Your task to perform on an android device: Empty the shopping cart on newegg.com. Search for "jbl flip 4" on newegg.com, select the first entry, add it to the cart, then select checkout. Image 0: 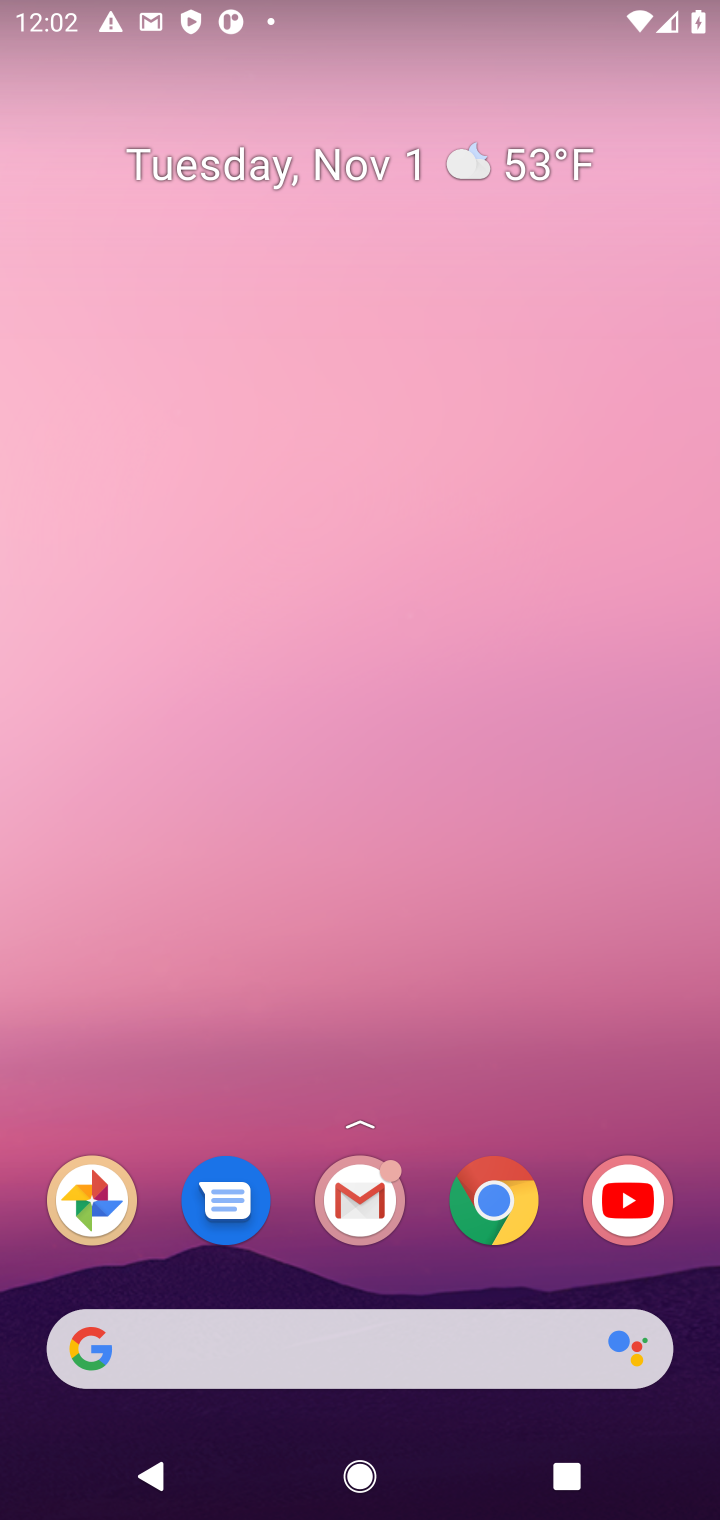
Step 0: click (494, 1203)
Your task to perform on an android device: Empty the shopping cart on newegg.com. Search for "jbl flip 4" on newegg.com, select the first entry, add it to the cart, then select checkout. Image 1: 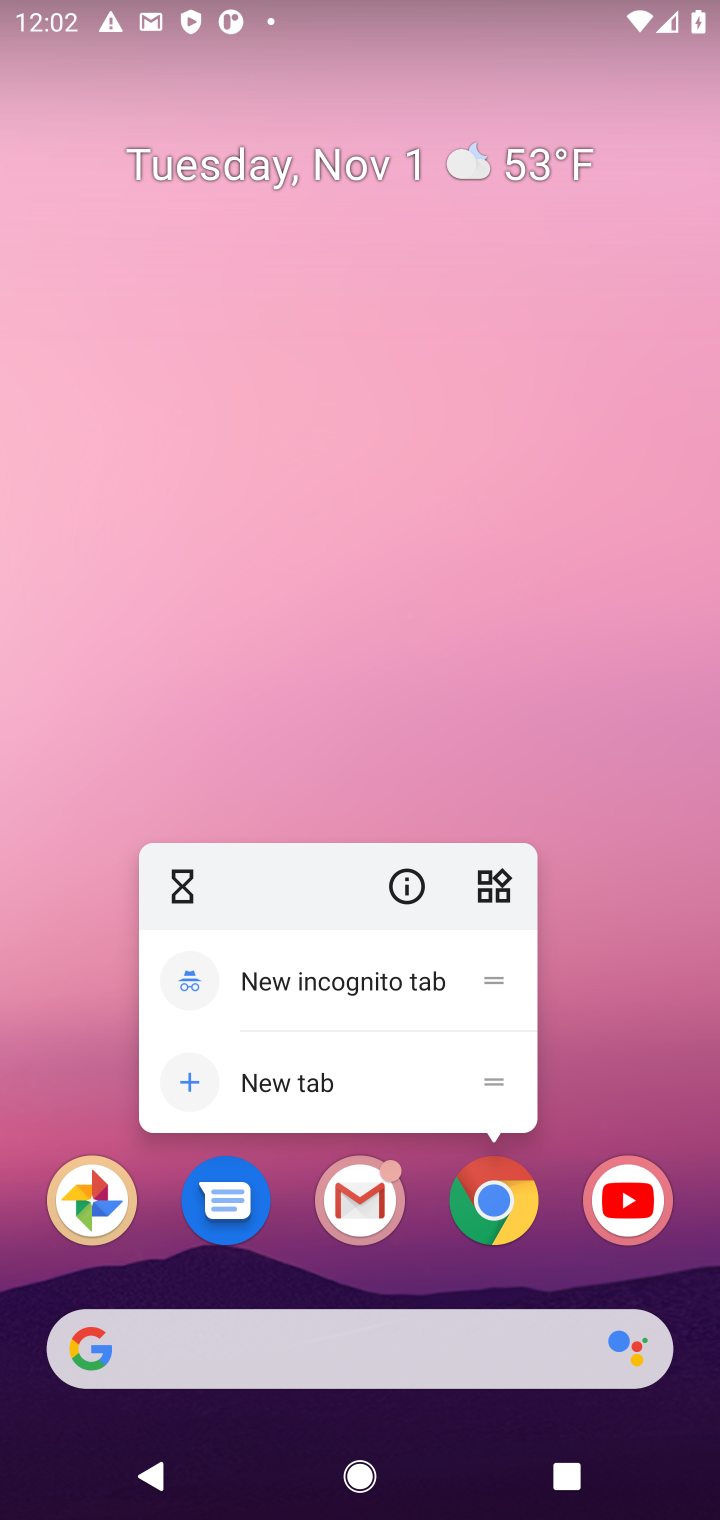
Step 1: click (501, 1238)
Your task to perform on an android device: Empty the shopping cart on newegg.com. Search for "jbl flip 4" on newegg.com, select the first entry, add it to the cart, then select checkout. Image 2: 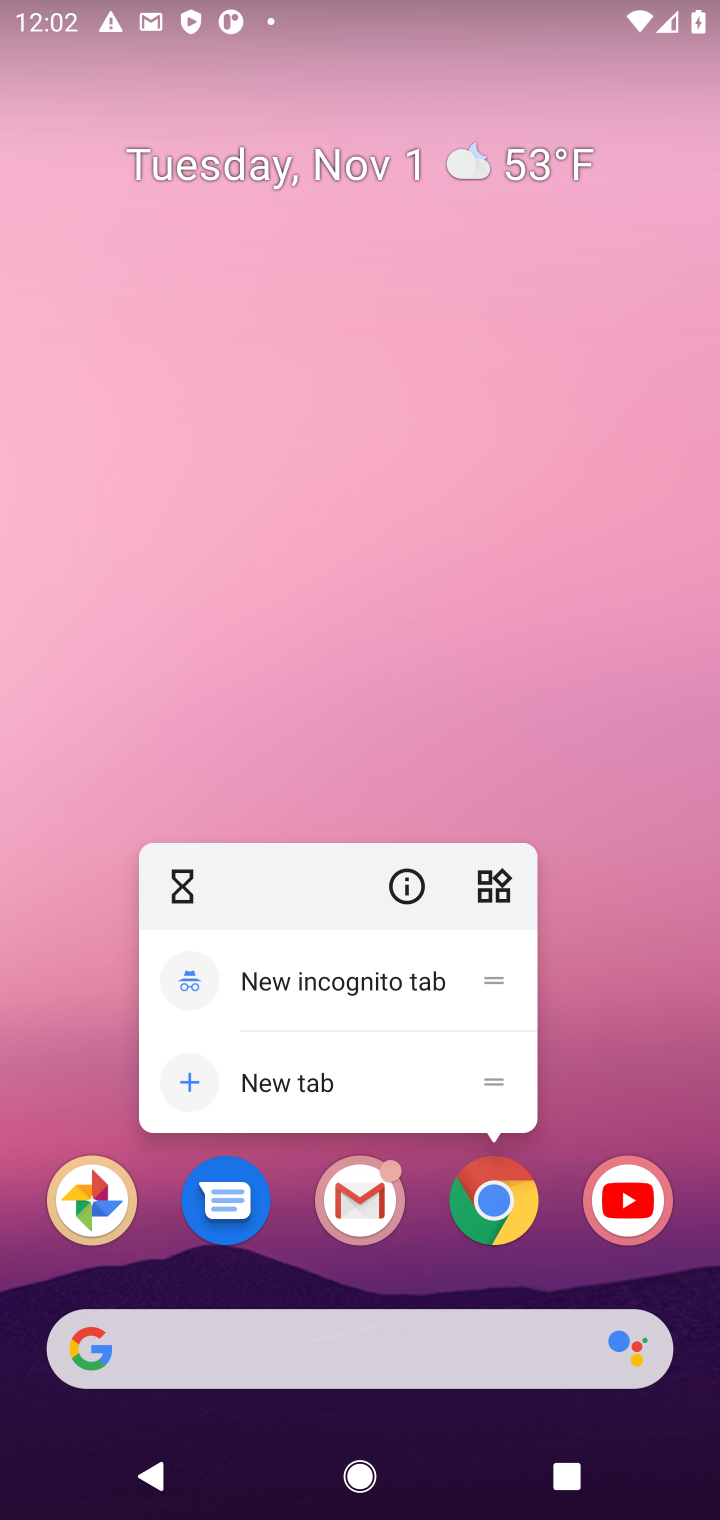
Step 2: click (499, 1221)
Your task to perform on an android device: Empty the shopping cart on newegg.com. Search for "jbl flip 4" on newegg.com, select the first entry, add it to the cart, then select checkout. Image 3: 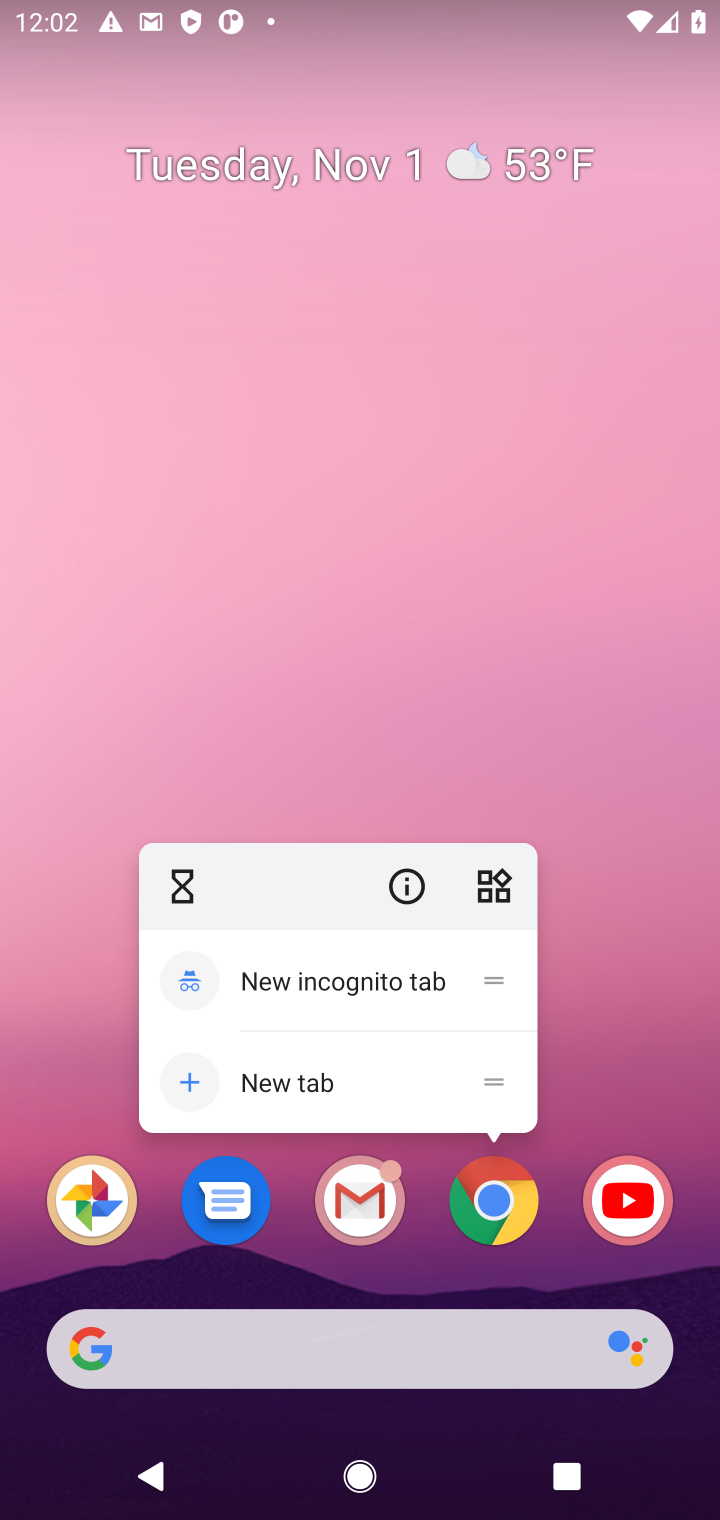
Step 3: click (483, 1195)
Your task to perform on an android device: Empty the shopping cart on newegg.com. Search for "jbl flip 4" on newegg.com, select the first entry, add it to the cart, then select checkout. Image 4: 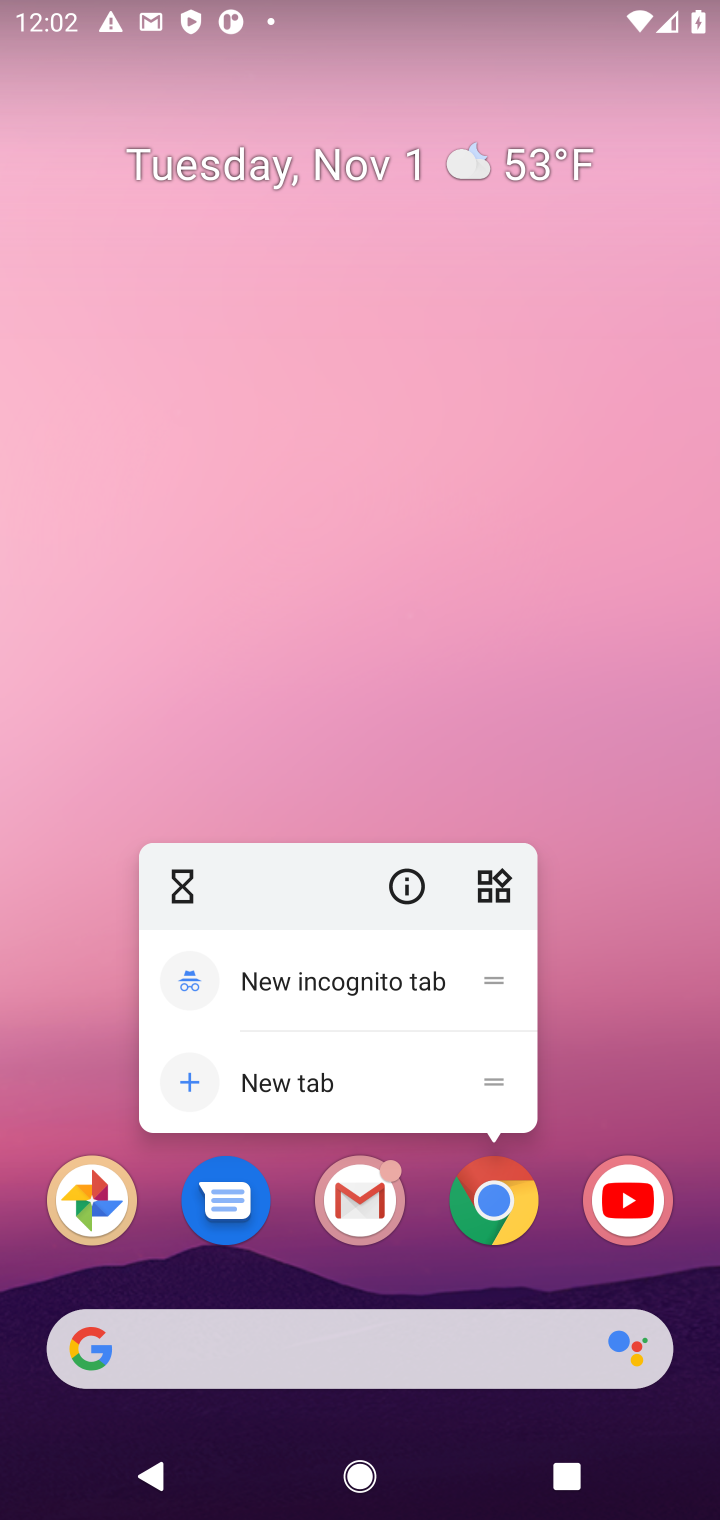
Step 4: click (501, 1216)
Your task to perform on an android device: Empty the shopping cart on newegg.com. Search for "jbl flip 4" on newegg.com, select the first entry, add it to the cart, then select checkout. Image 5: 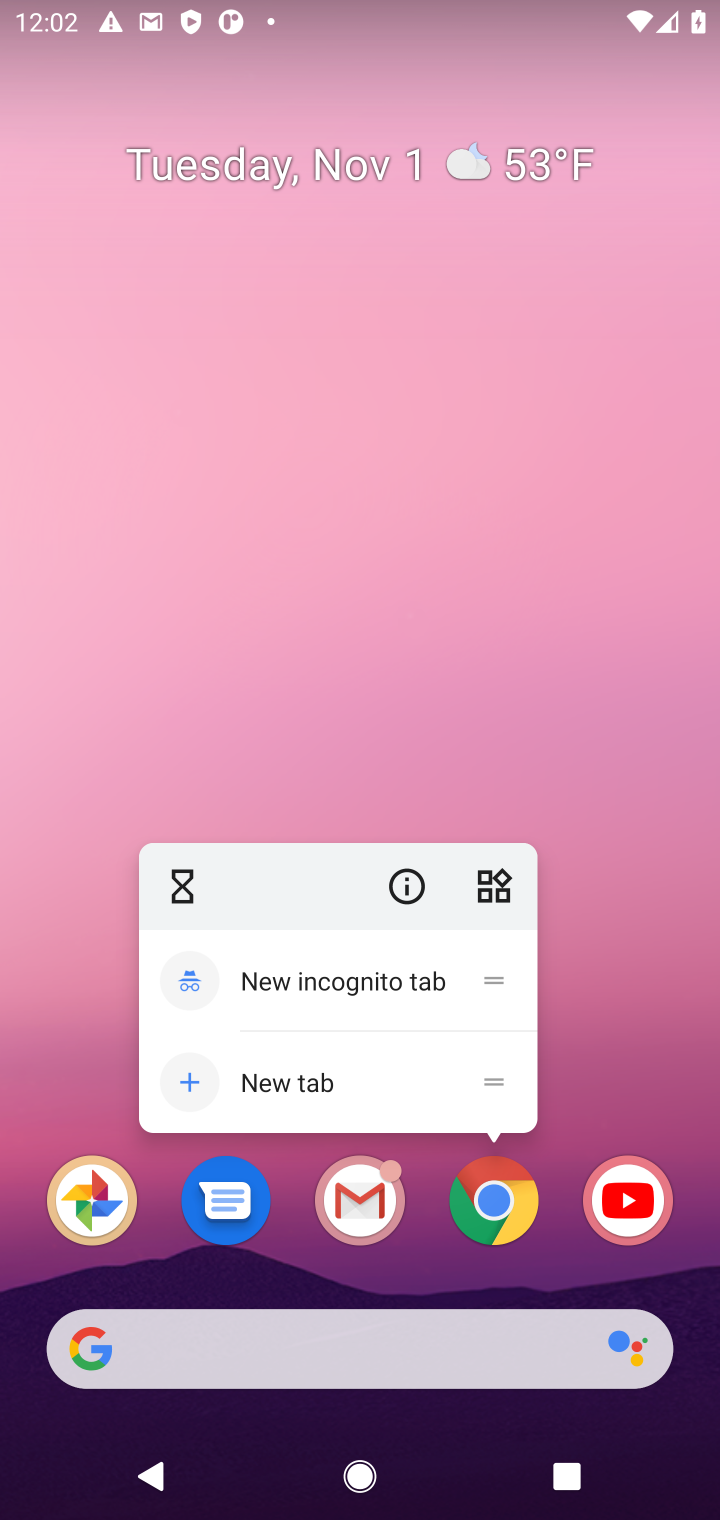
Step 5: click (493, 1230)
Your task to perform on an android device: Empty the shopping cart on newegg.com. Search for "jbl flip 4" on newegg.com, select the first entry, add it to the cart, then select checkout. Image 6: 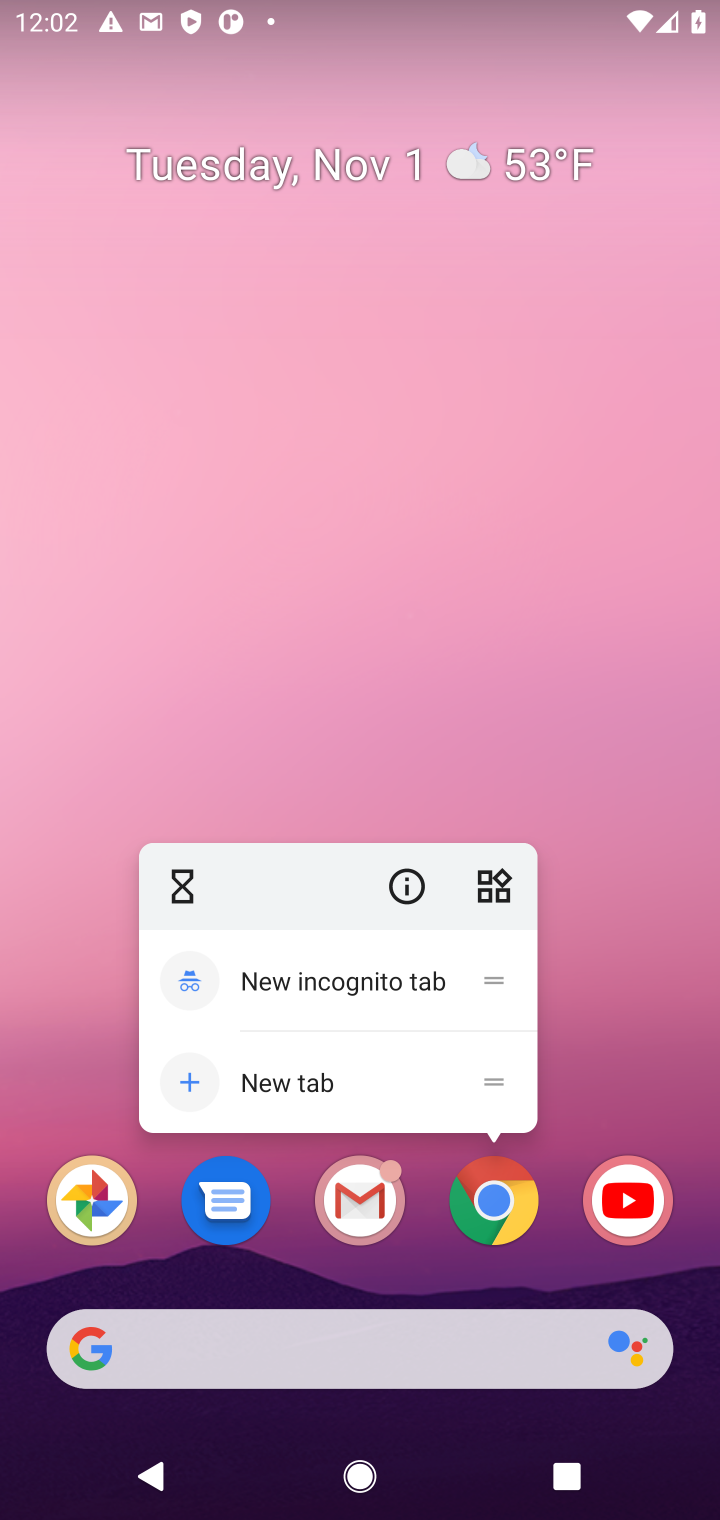
Step 6: click (497, 1206)
Your task to perform on an android device: Empty the shopping cart on newegg.com. Search for "jbl flip 4" on newegg.com, select the first entry, add it to the cart, then select checkout. Image 7: 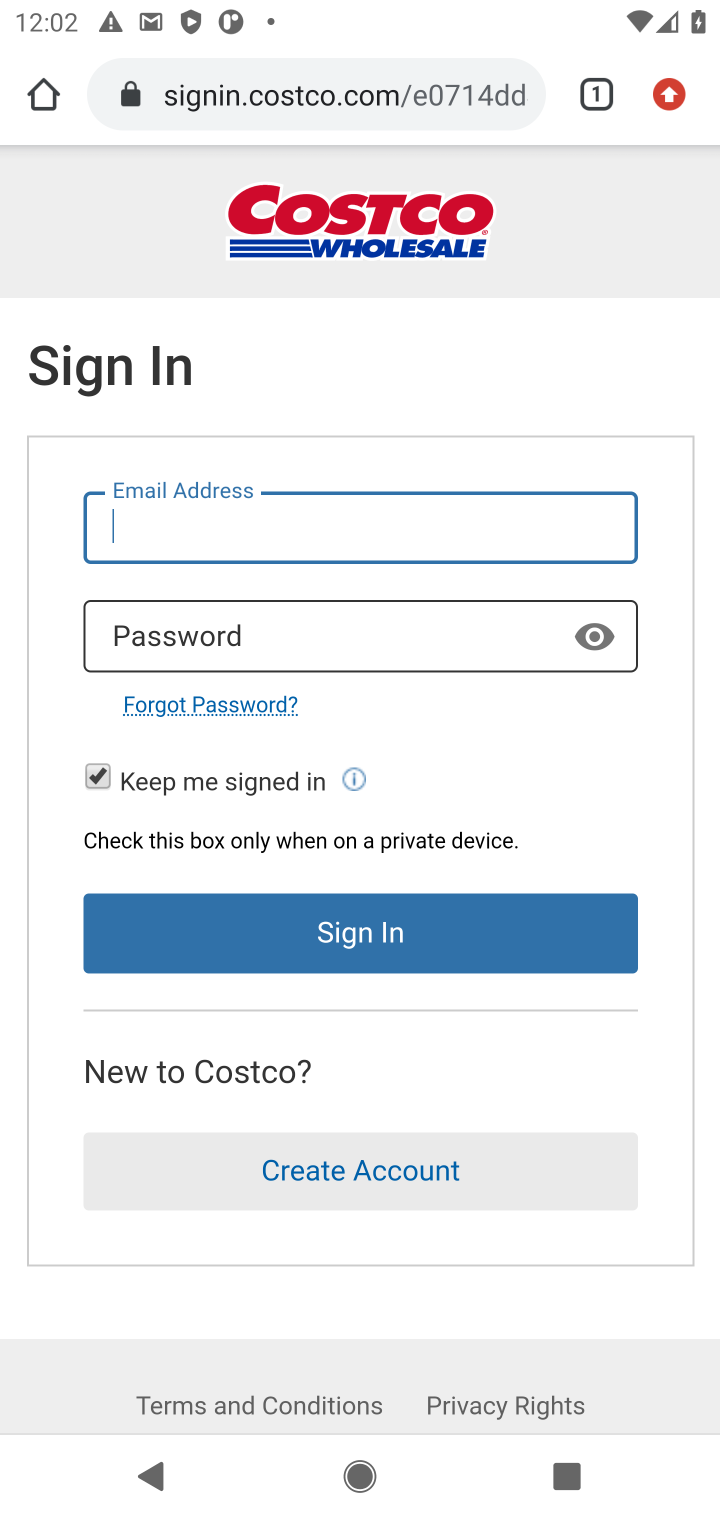
Step 7: click (443, 72)
Your task to perform on an android device: Empty the shopping cart on newegg.com. Search for "jbl flip 4" on newegg.com, select the first entry, add it to the cart, then select checkout. Image 8: 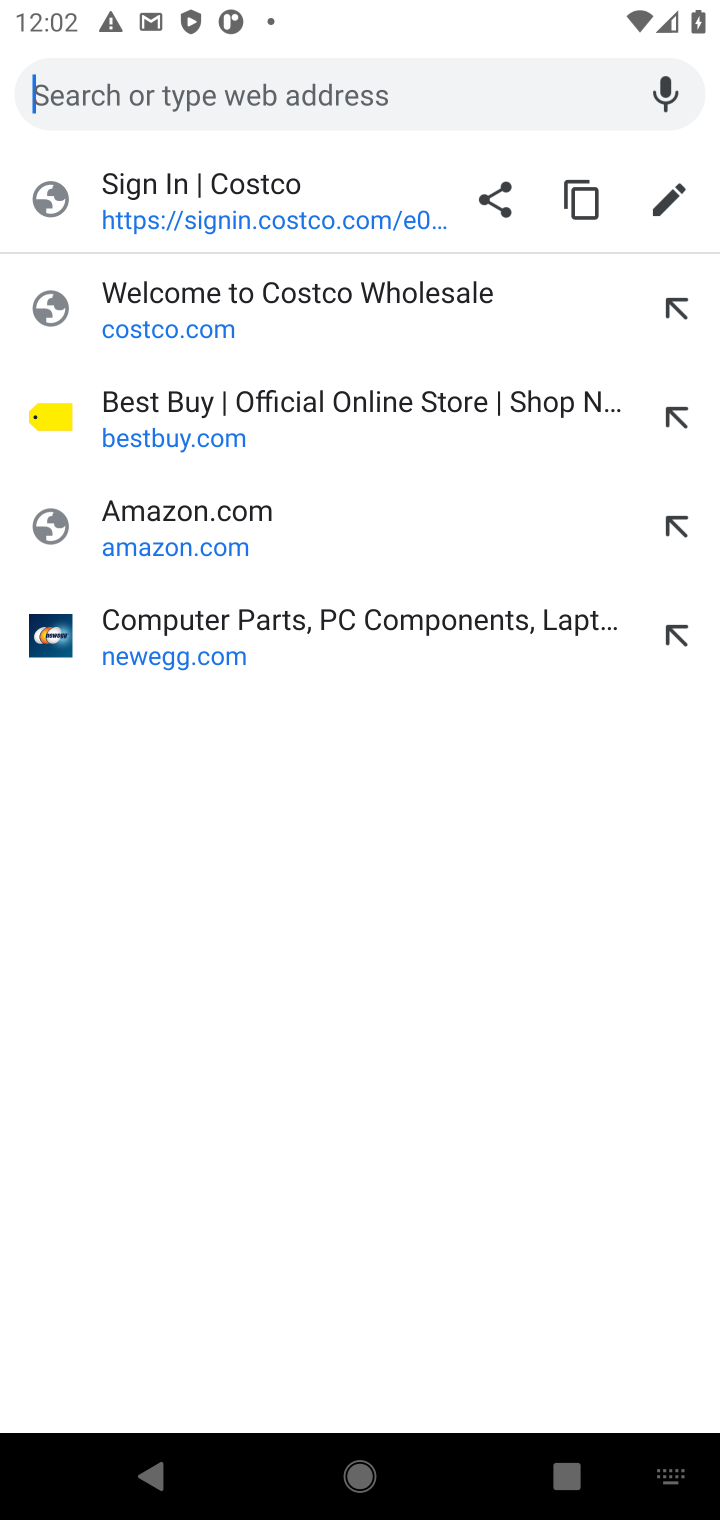
Step 8: click (280, 106)
Your task to perform on an android device: Empty the shopping cart on newegg.com. Search for "jbl flip 4" on newegg.com, select the first entry, add it to the cart, then select checkout. Image 9: 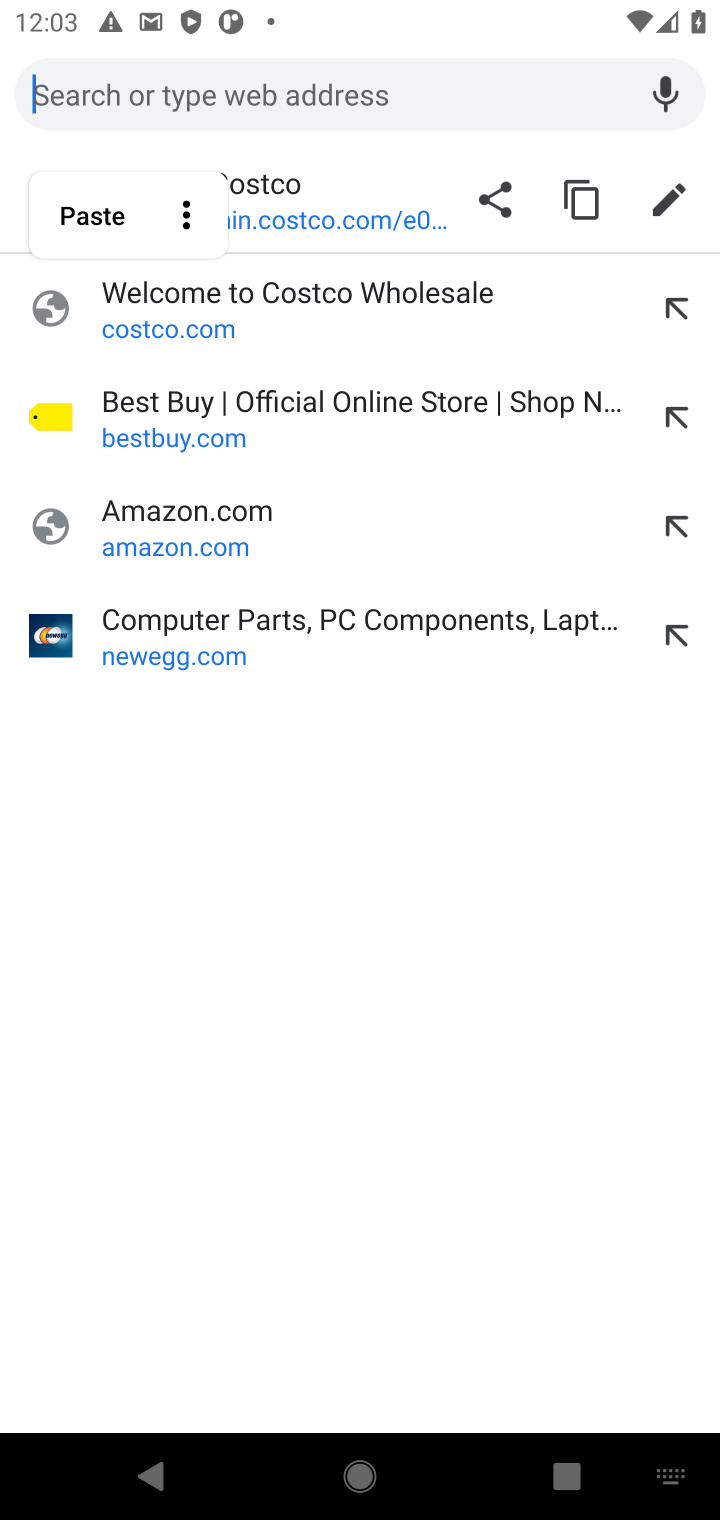
Step 9: type "jbl flip 4"
Your task to perform on an android device: Empty the shopping cart on newegg.com. Search for "jbl flip 4" on newegg.com, select the first entry, add it to the cart, then select checkout. Image 10: 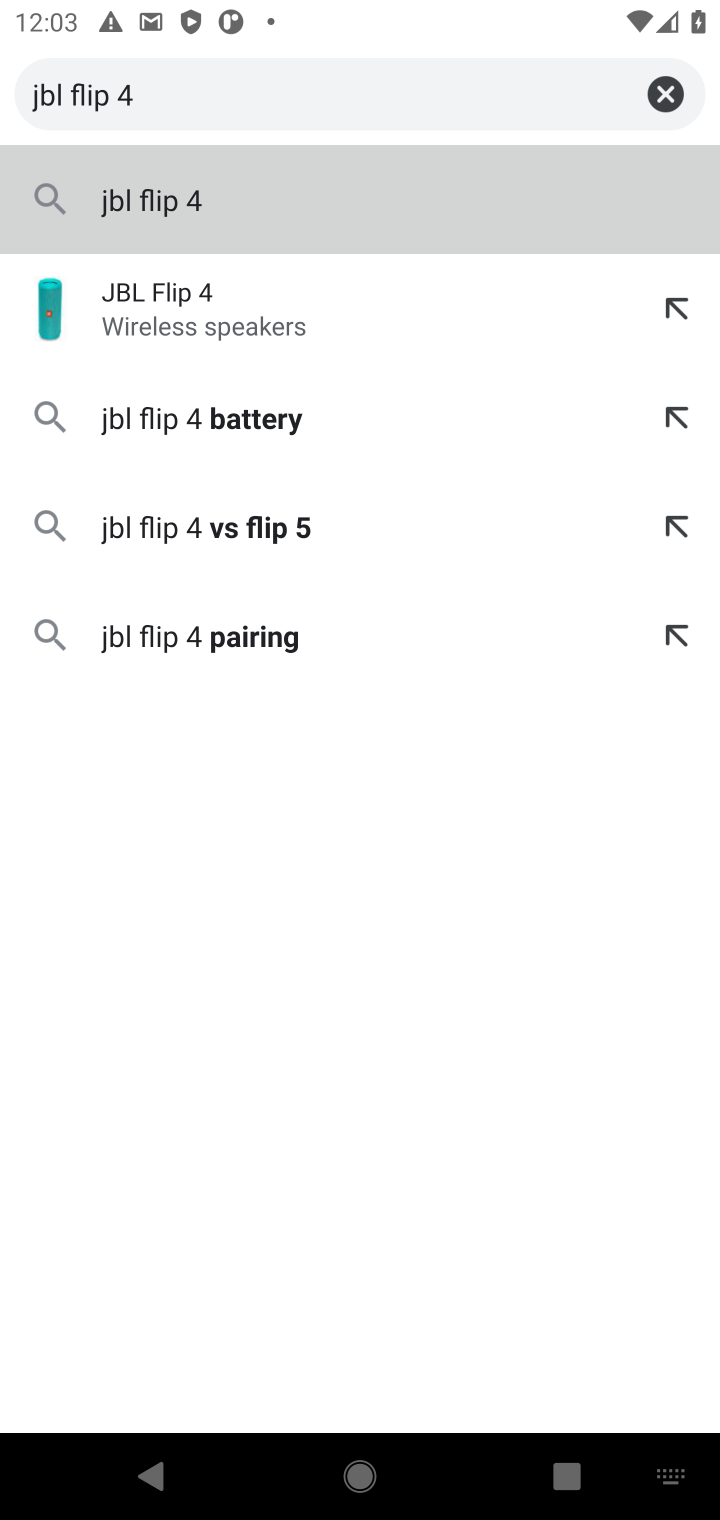
Step 10: press back button
Your task to perform on an android device: Empty the shopping cart on newegg.com. Search for "jbl flip 4" on newegg.com, select the first entry, add it to the cart, then select checkout. Image 11: 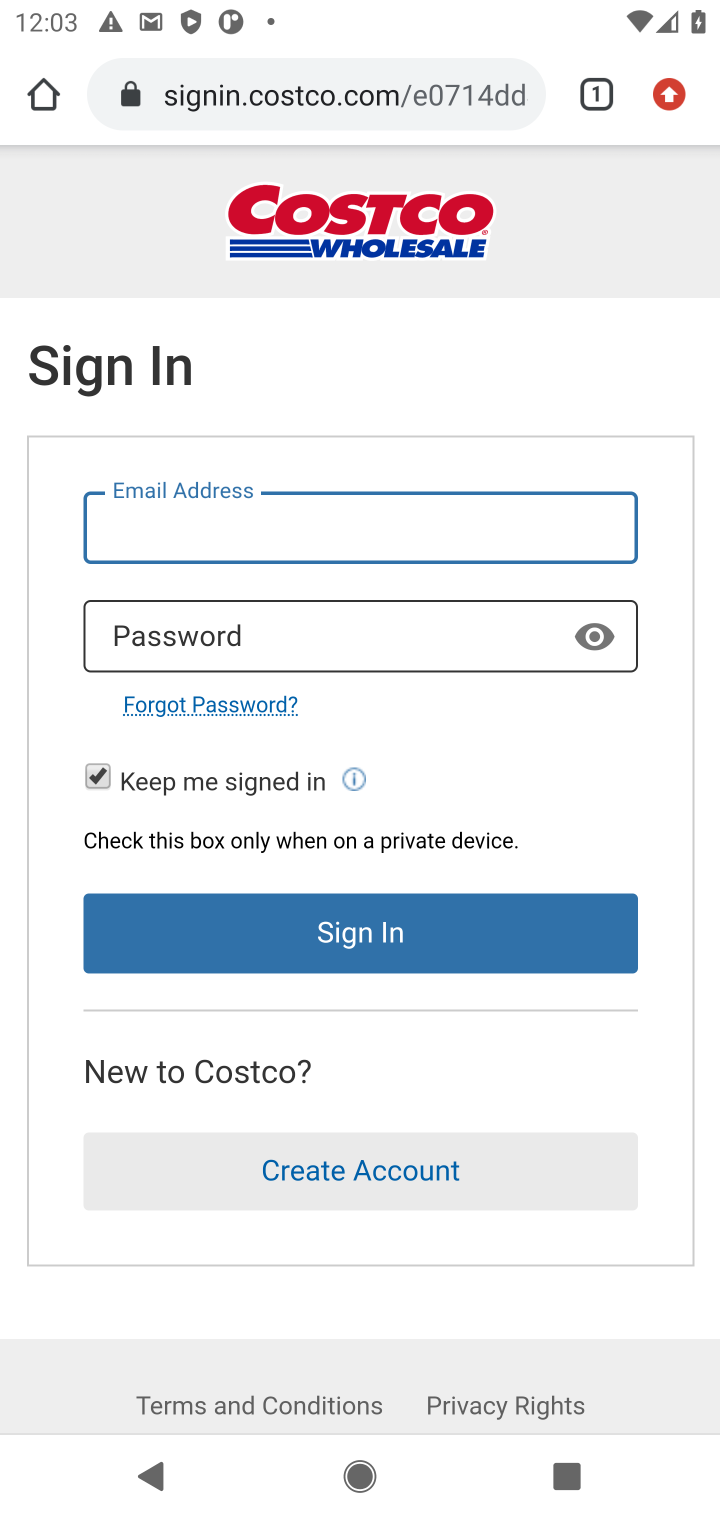
Step 11: click (268, 105)
Your task to perform on an android device: Empty the shopping cart on newegg.com. Search for "jbl flip 4" on newegg.com, select the first entry, add it to the cart, then select checkout. Image 12: 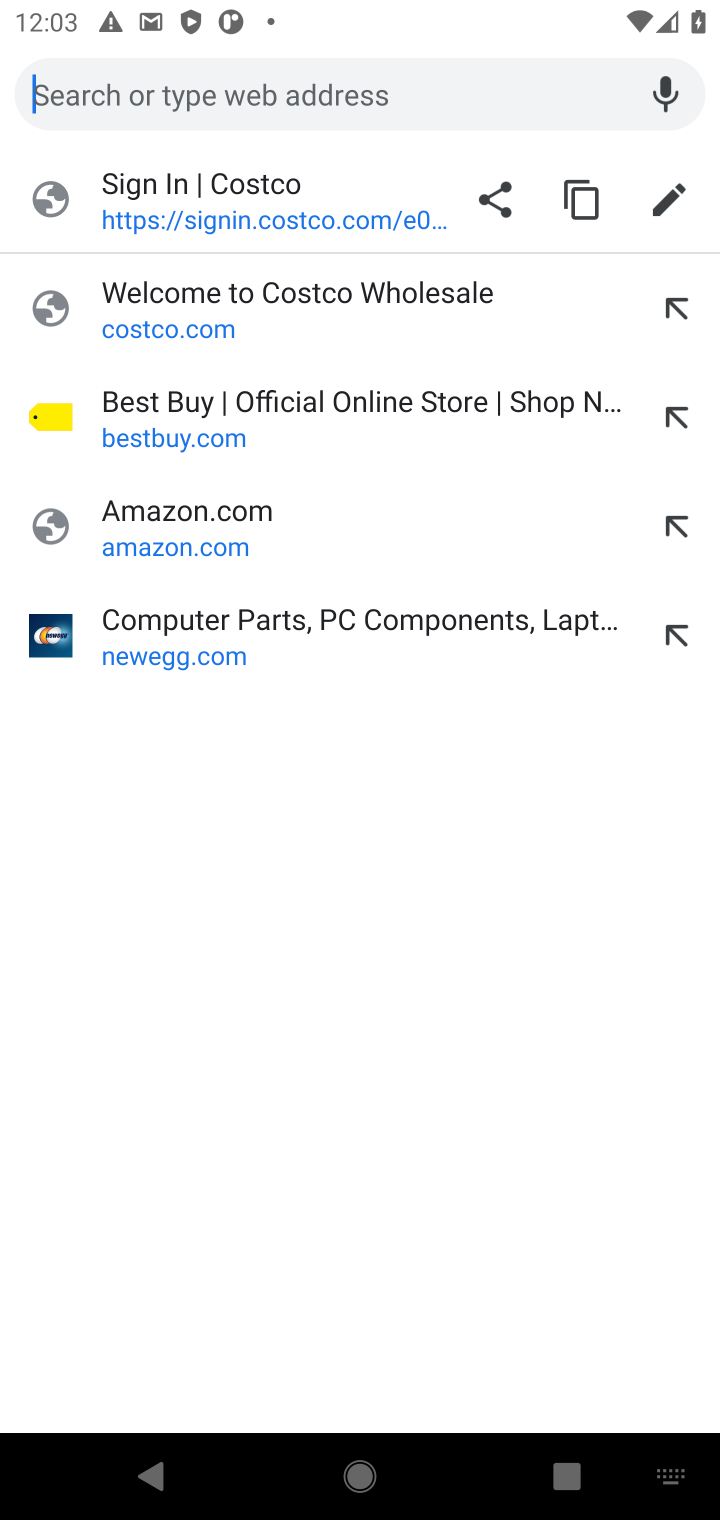
Step 12: type "newegg.com"
Your task to perform on an android device: Empty the shopping cart on newegg.com. Search for "jbl flip 4" on newegg.com, select the first entry, add it to the cart, then select checkout. Image 13: 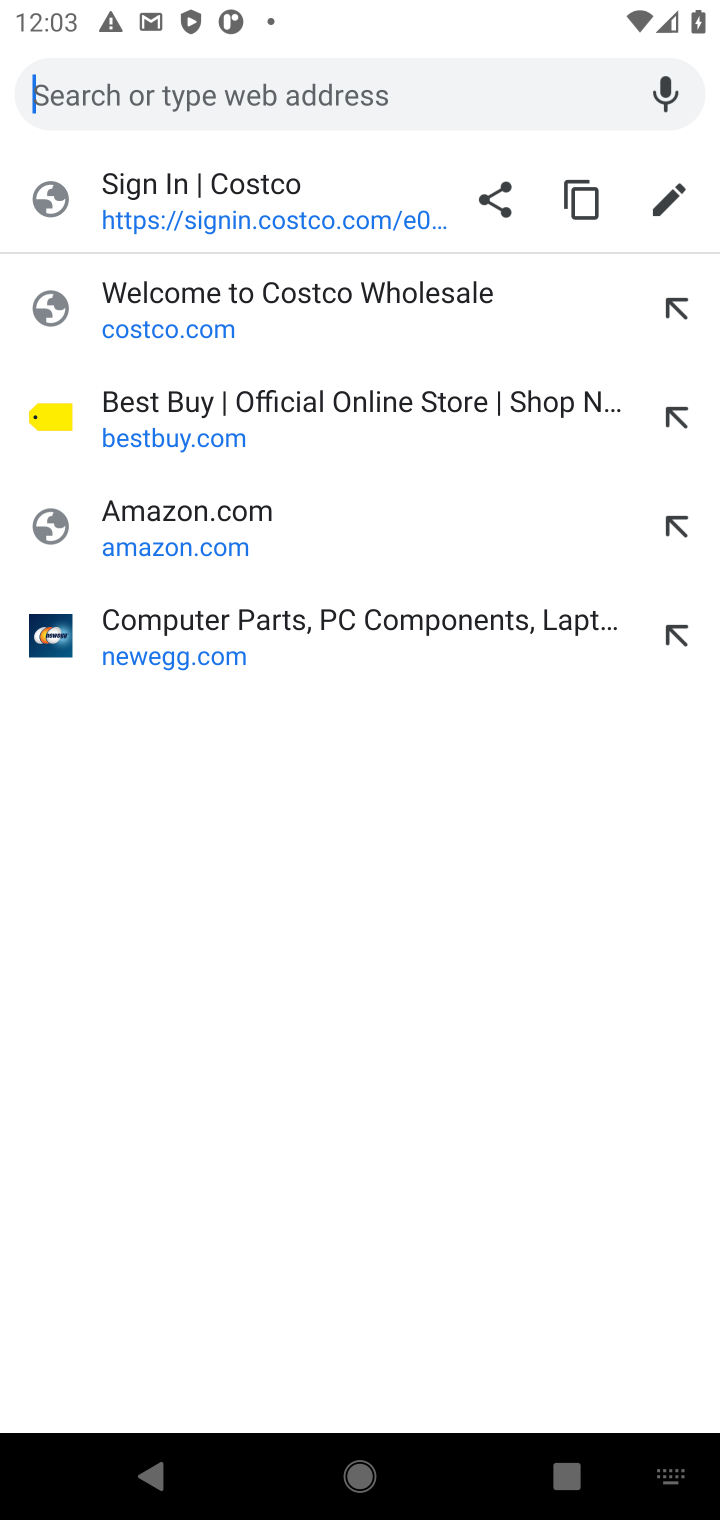
Step 13: click (353, 654)
Your task to perform on an android device: Empty the shopping cart on newegg.com. Search for "jbl flip 4" on newegg.com, select the first entry, add it to the cart, then select checkout. Image 14: 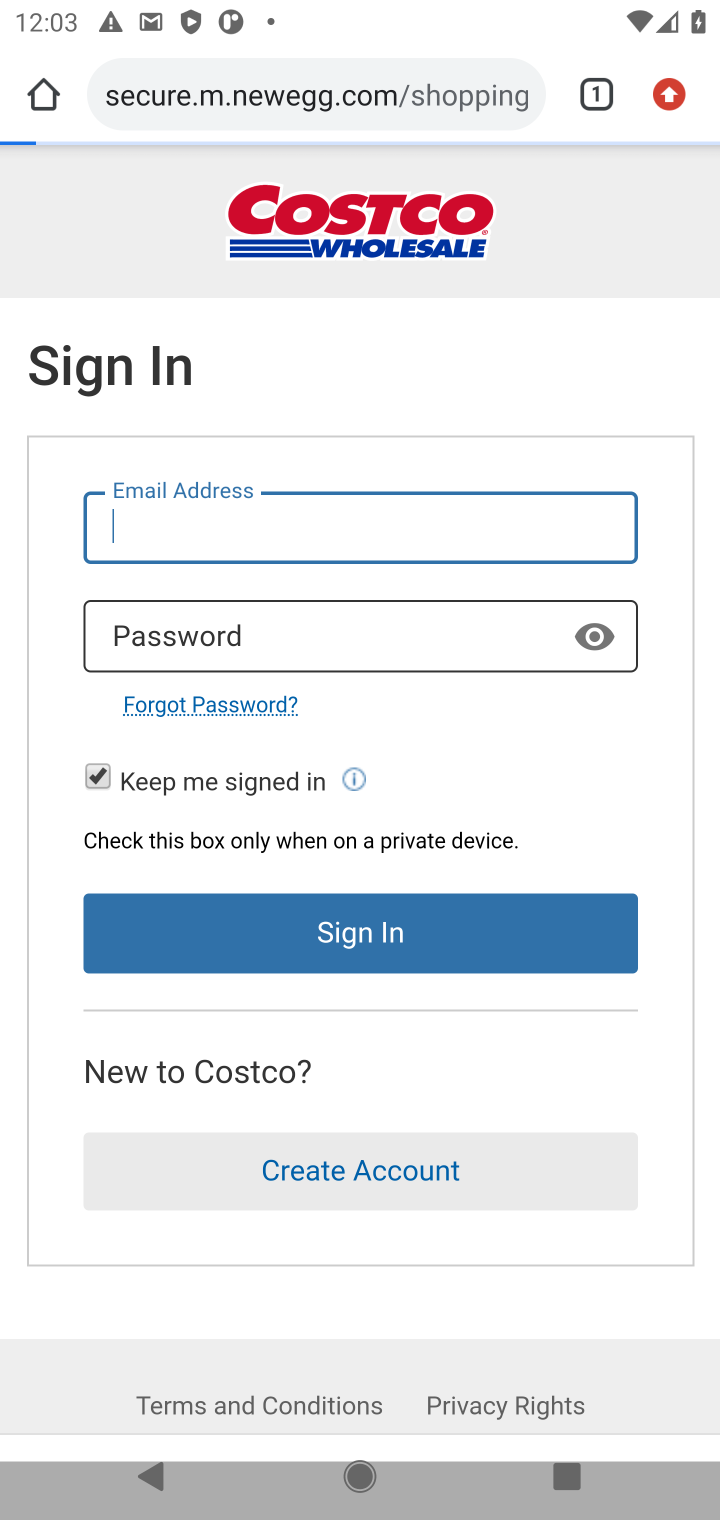
Step 14: click (304, 609)
Your task to perform on an android device: Empty the shopping cart on newegg.com. Search for "jbl flip 4" on newegg.com, select the first entry, add it to the cart, then select checkout. Image 15: 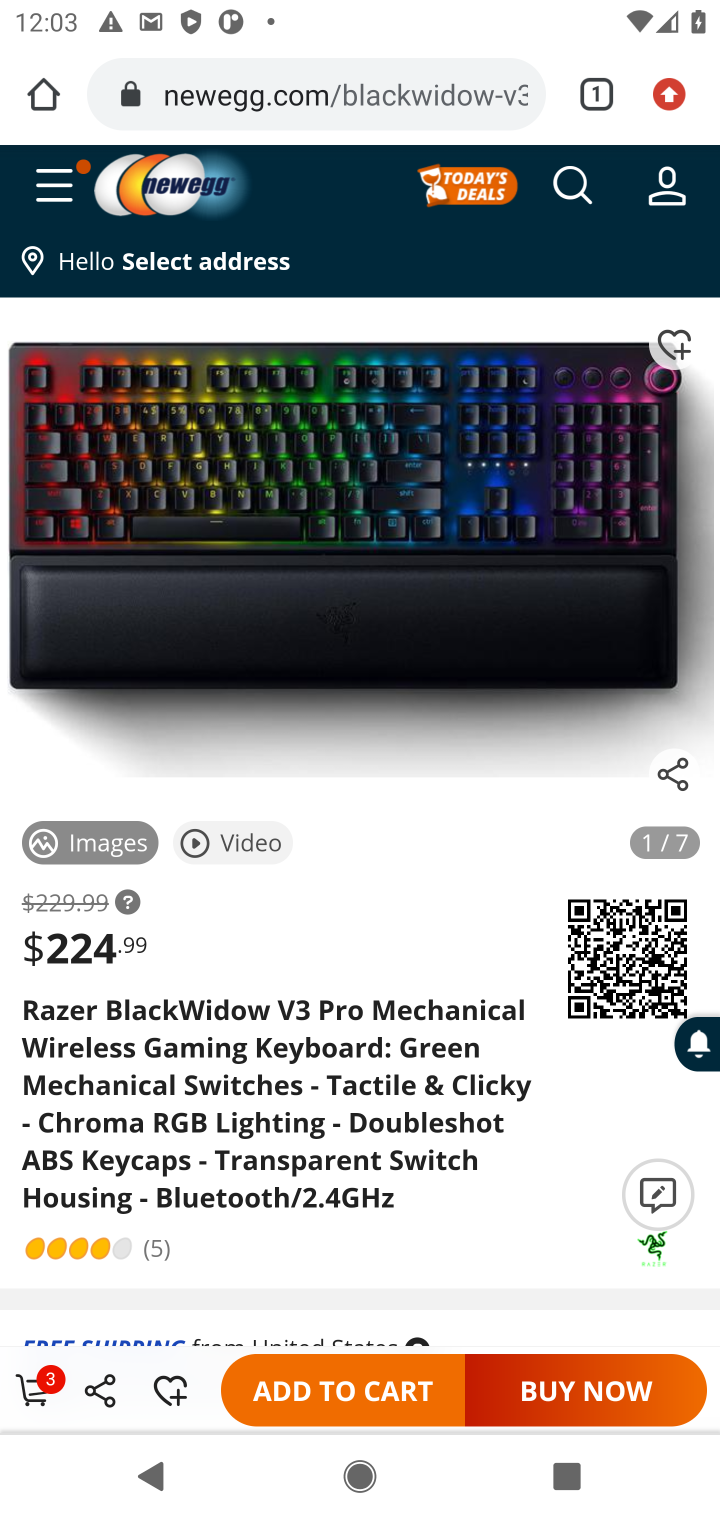
Step 15: click (581, 182)
Your task to perform on an android device: Empty the shopping cart on newegg.com. Search for "jbl flip 4" on newegg.com, select the first entry, add it to the cart, then select checkout. Image 16: 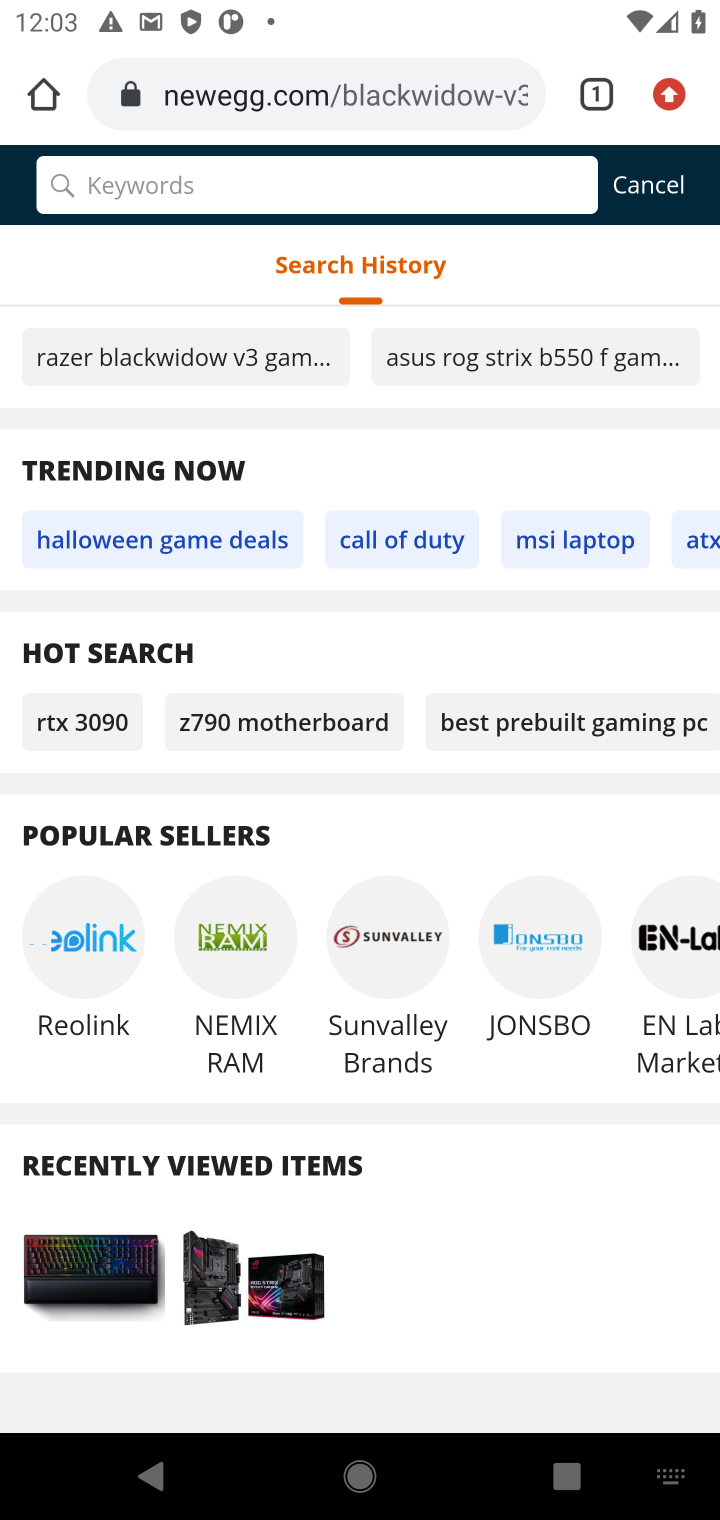
Step 16: type "jbl flip 4"
Your task to perform on an android device: Empty the shopping cart on newegg.com. Search for "jbl flip 4" on newegg.com, select the first entry, add it to the cart, then select checkout. Image 17: 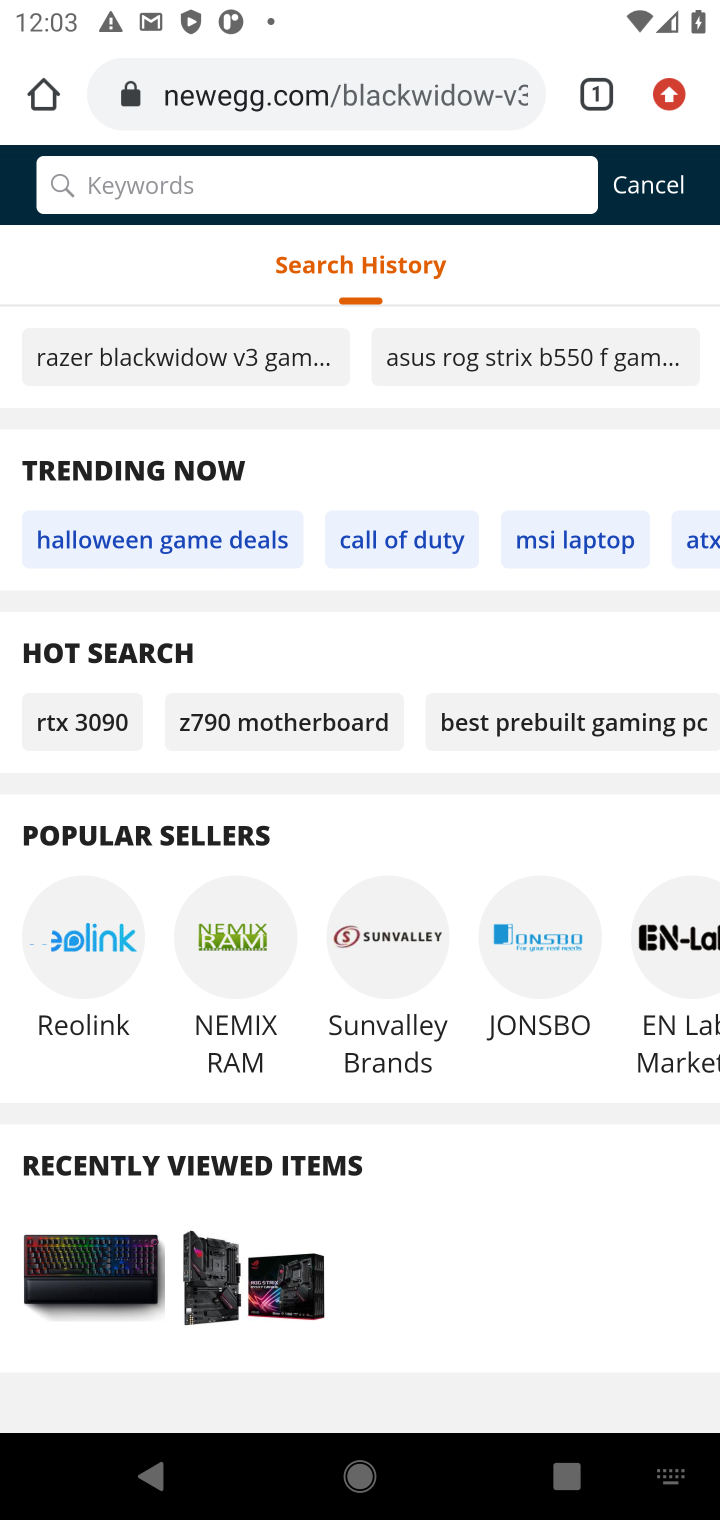
Step 17: type ""
Your task to perform on an android device: Empty the shopping cart on newegg.com. Search for "jbl flip 4" on newegg.com, select the first entry, add it to the cart, then select checkout. Image 18: 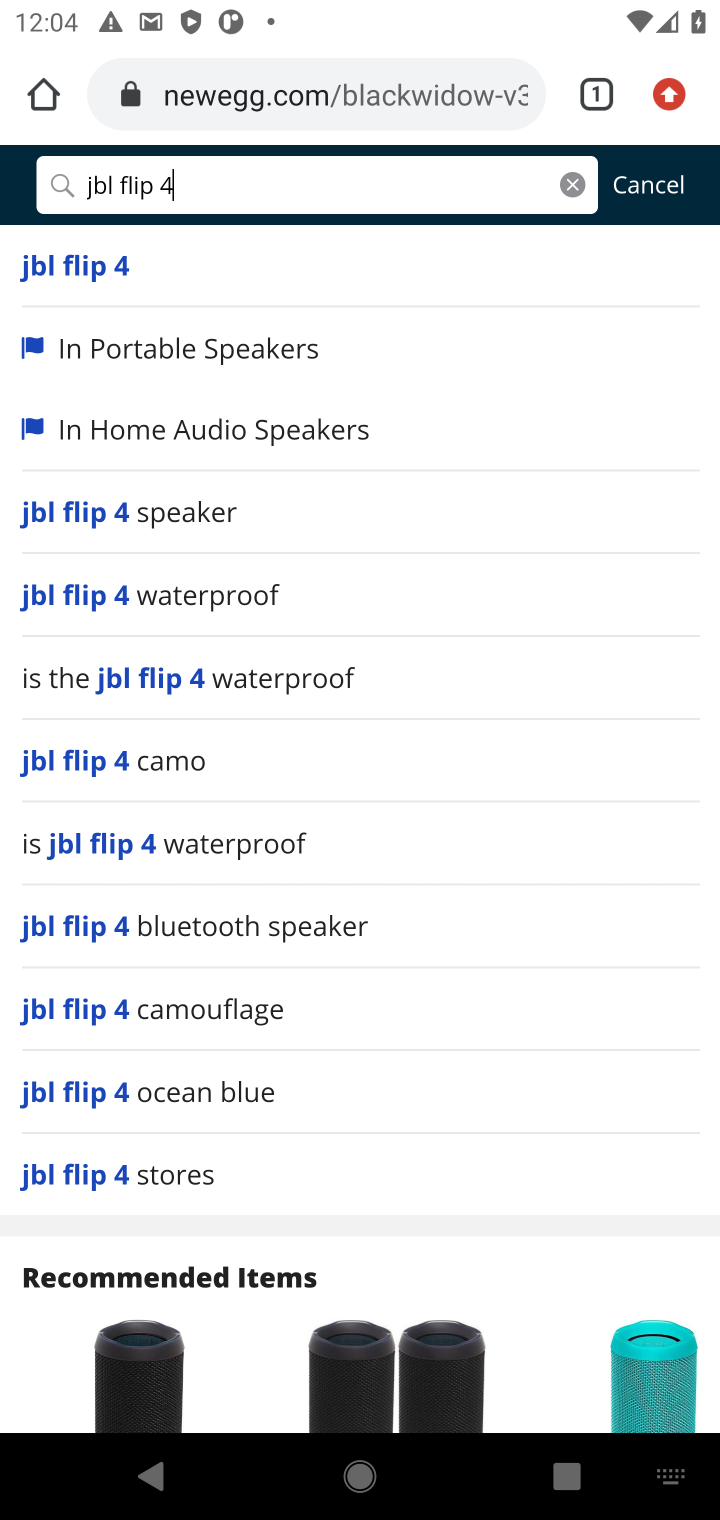
Step 18: click (136, 509)
Your task to perform on an android device: Empty the shopping cart on newegg.com. Search for "jbl flip 4" on newegg.com, select the first entry, add it to the cart, then select checkout. Image 19: 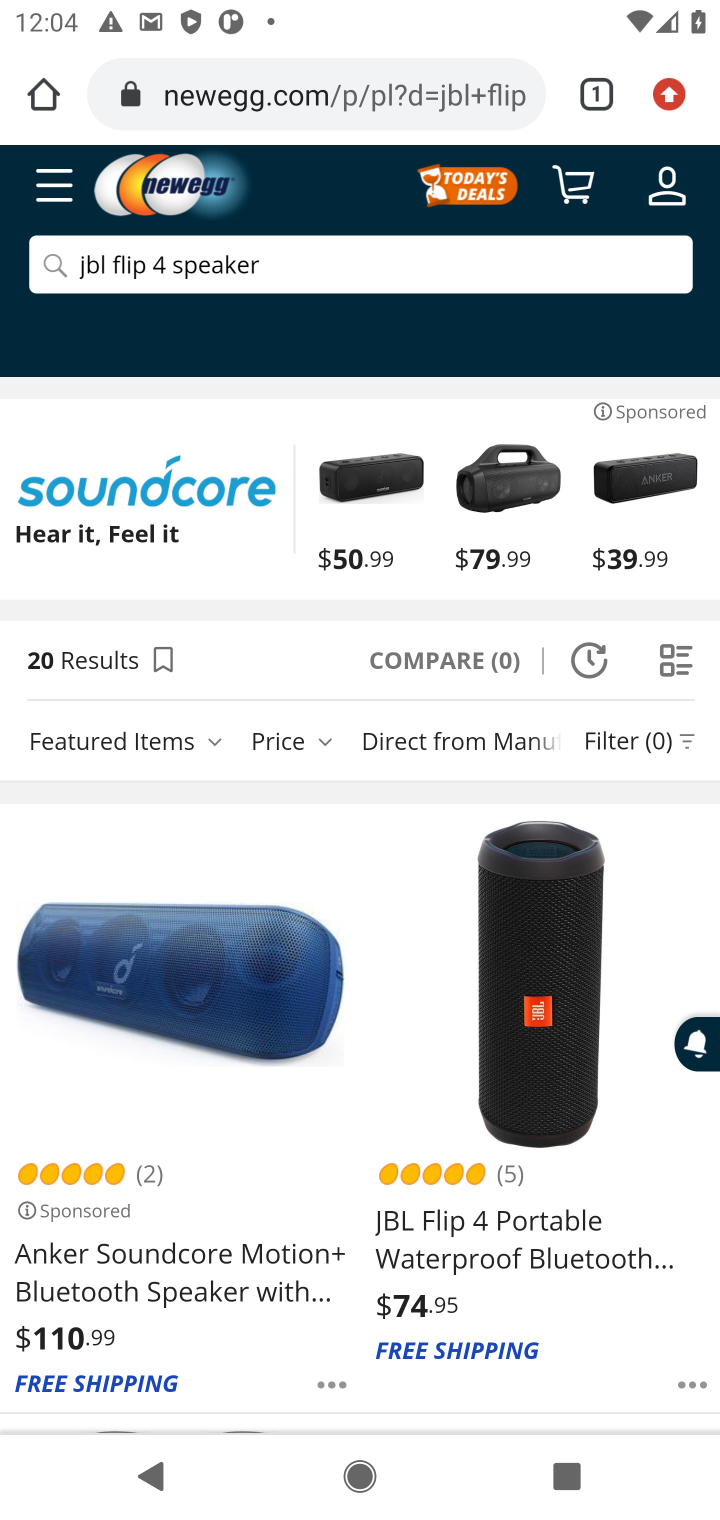
Step 19: click (500, 1243)
Your task to perform on an android device: Empty the shopping cart on newegg.com. Search for "jbl flip 4" on newegg.com, select the first entry, add it to the cart, then select checkout. Image 20: 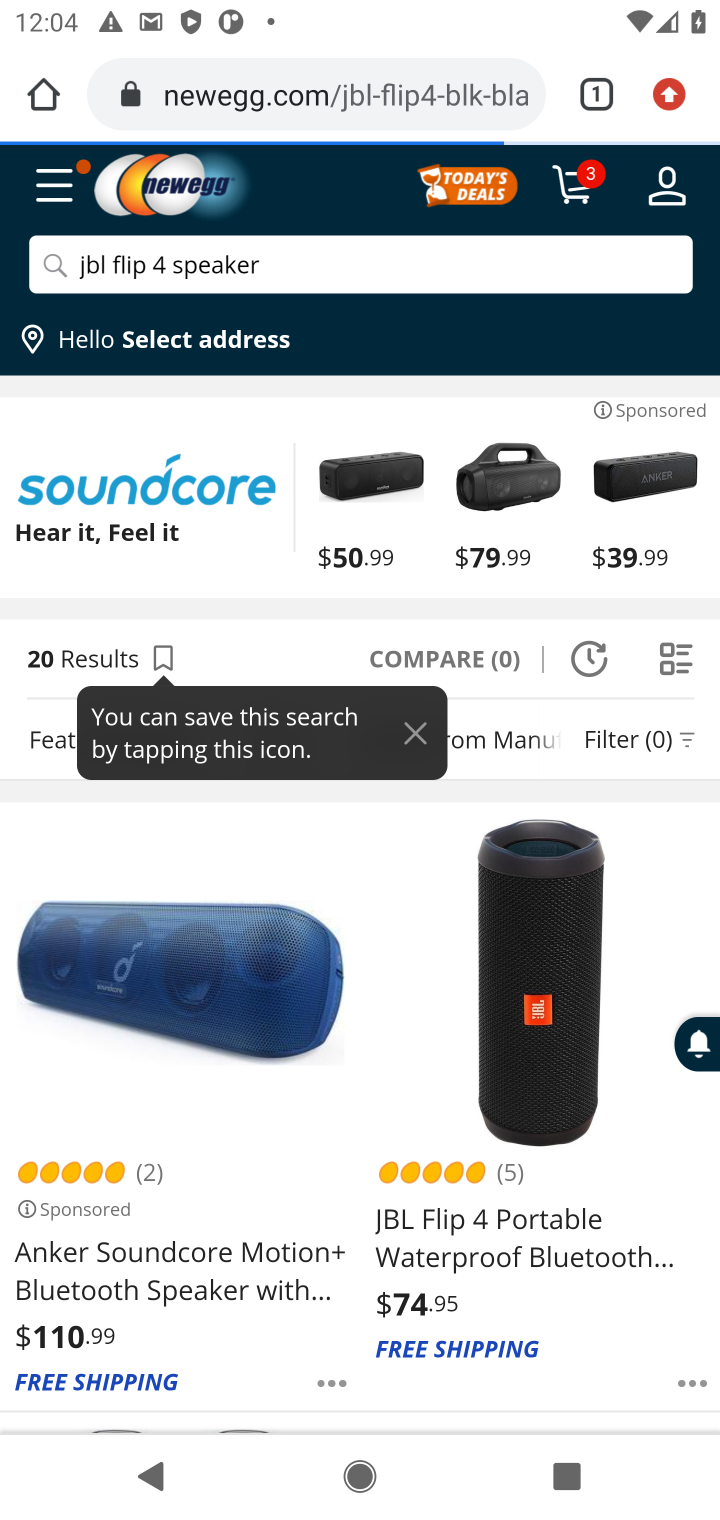
Step 20: click (469, 1002)
Your task to perform on an android device: Empty the shopping cart on newegg.com. Search for "jbl flip 4" on newegg.com, select the first entry, add it to the cart, then select checkout. Image 21: 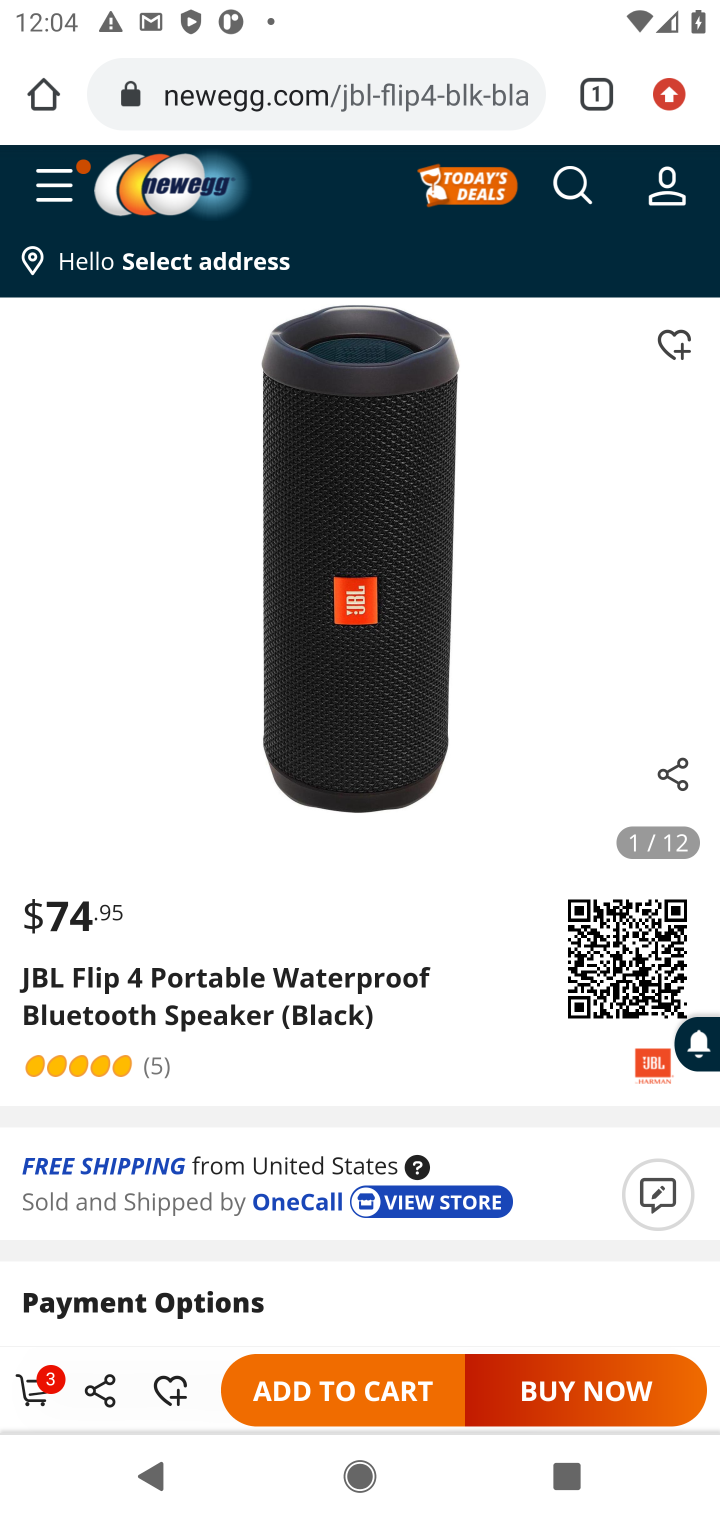
Step 21: click (340, 1373)
Your task to perform on an android device: Empty the shopping cart on newegg.com. Search for "jbl flip 4" on newegg.com, select the first entry, add it to the cart, then select checkout. Image 22: 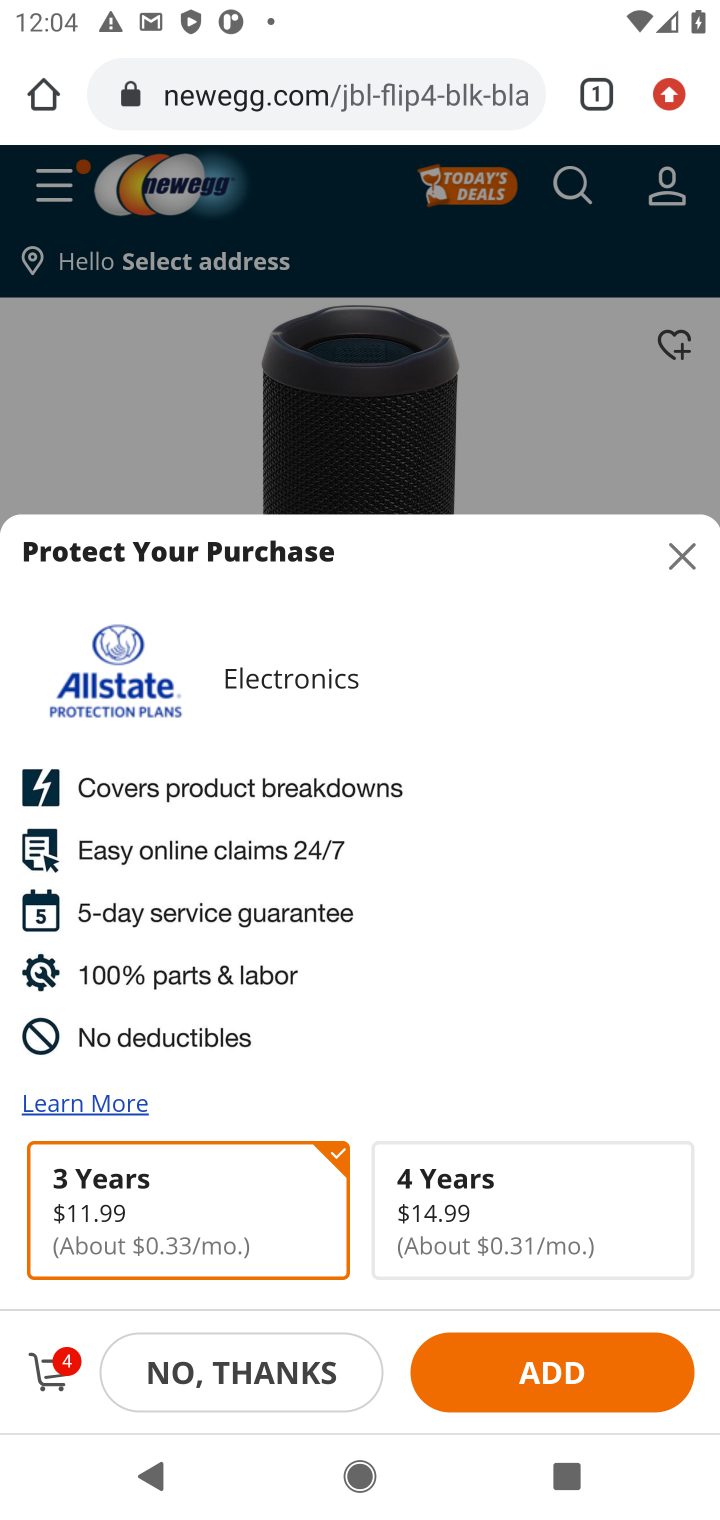
Step 22: click (310, 1365)
Your task to perform on an android device: Empty the shopping cart on newegg.com. Search for "jbl flip 4" on newegg.com, select the first entry, add it to the cart, then select checkout. Image 23: 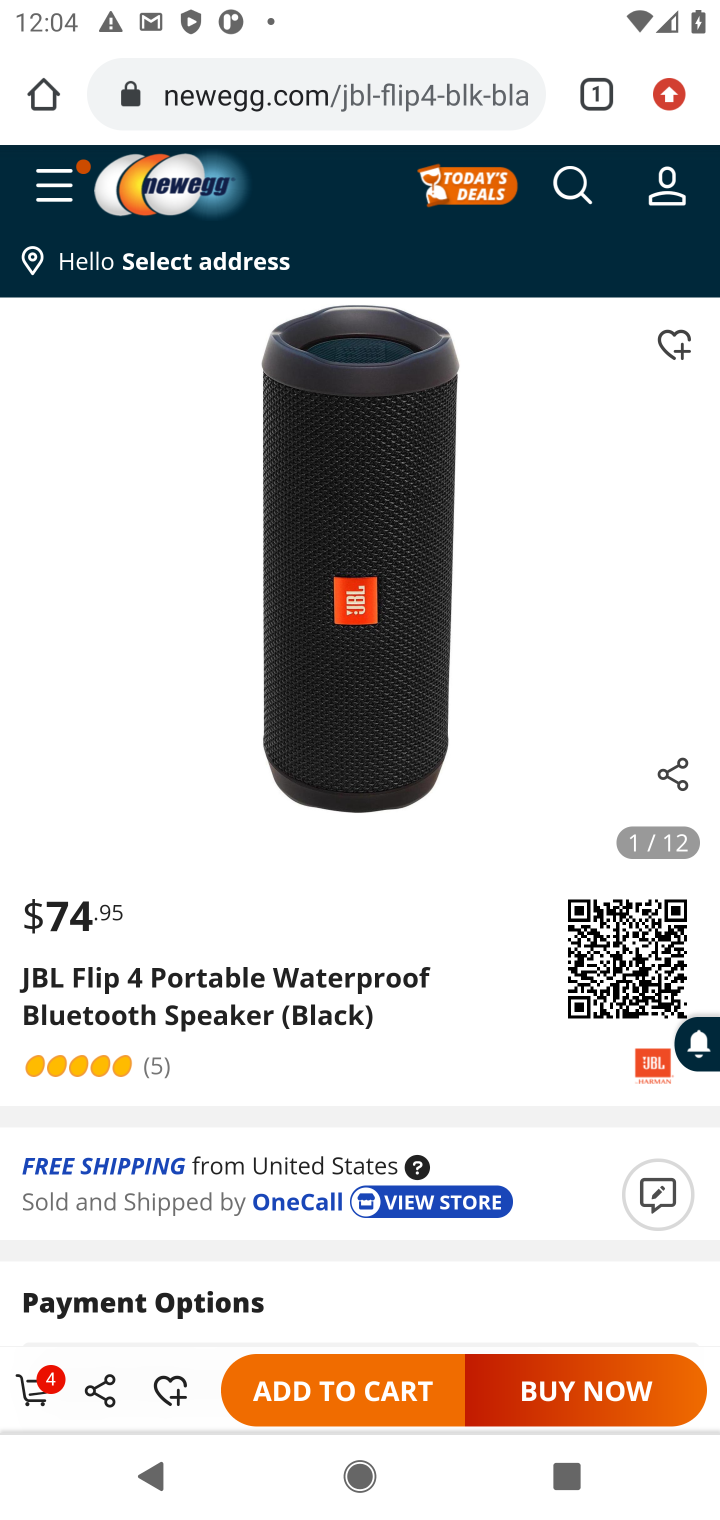
Step 23: click (44, 1374)
Your task to perform on an android device: Empty the shopping cart on newegg.com. Search for "jbl flip 4" on newegg.com, select the first entry, add it to the cart, then select checkout. Image 24: 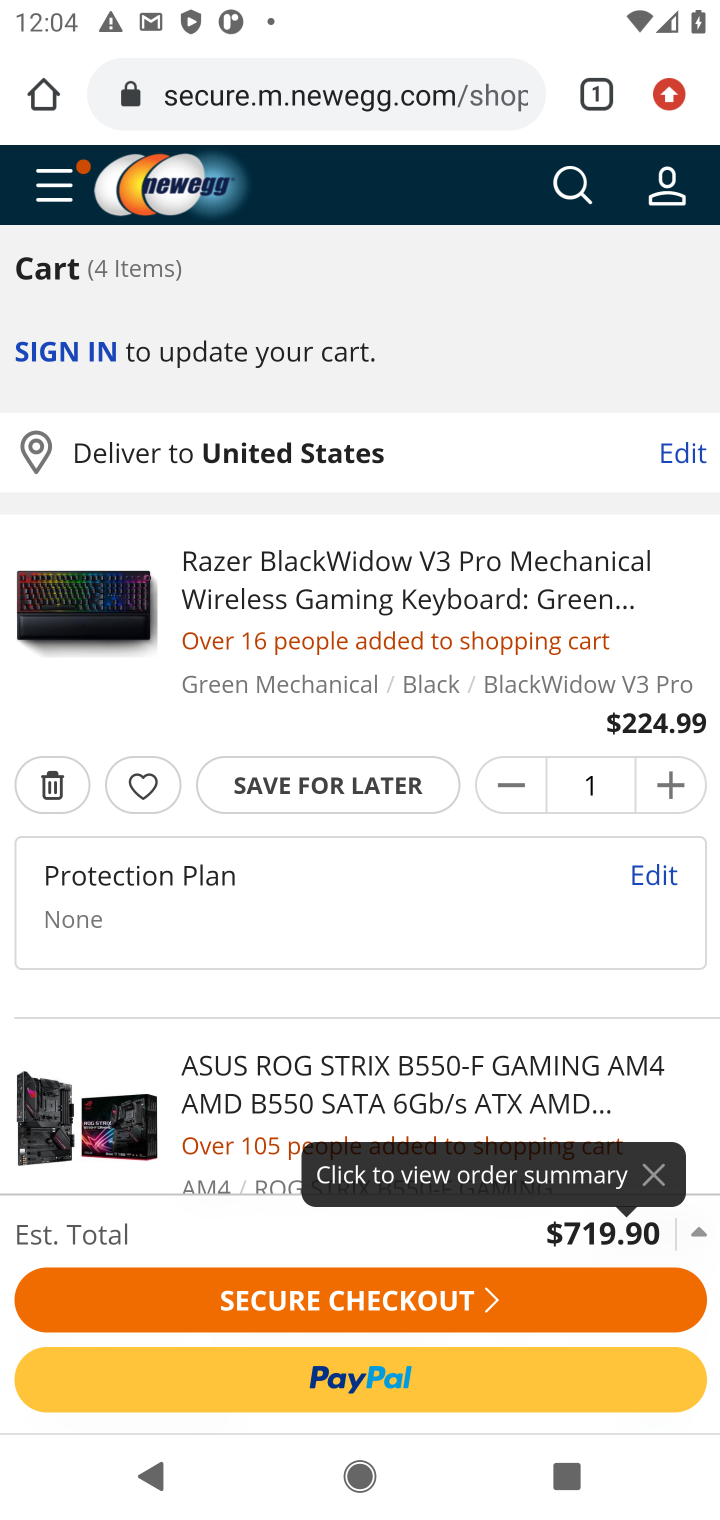
Step 24: click (485, 778)
Your task to perform on an android device: Empty the shopping cart on newegg.com. Search for "jbl flip 4" on newegg.com, select the first entry, add it to the cart, then select checkout. Image 25: 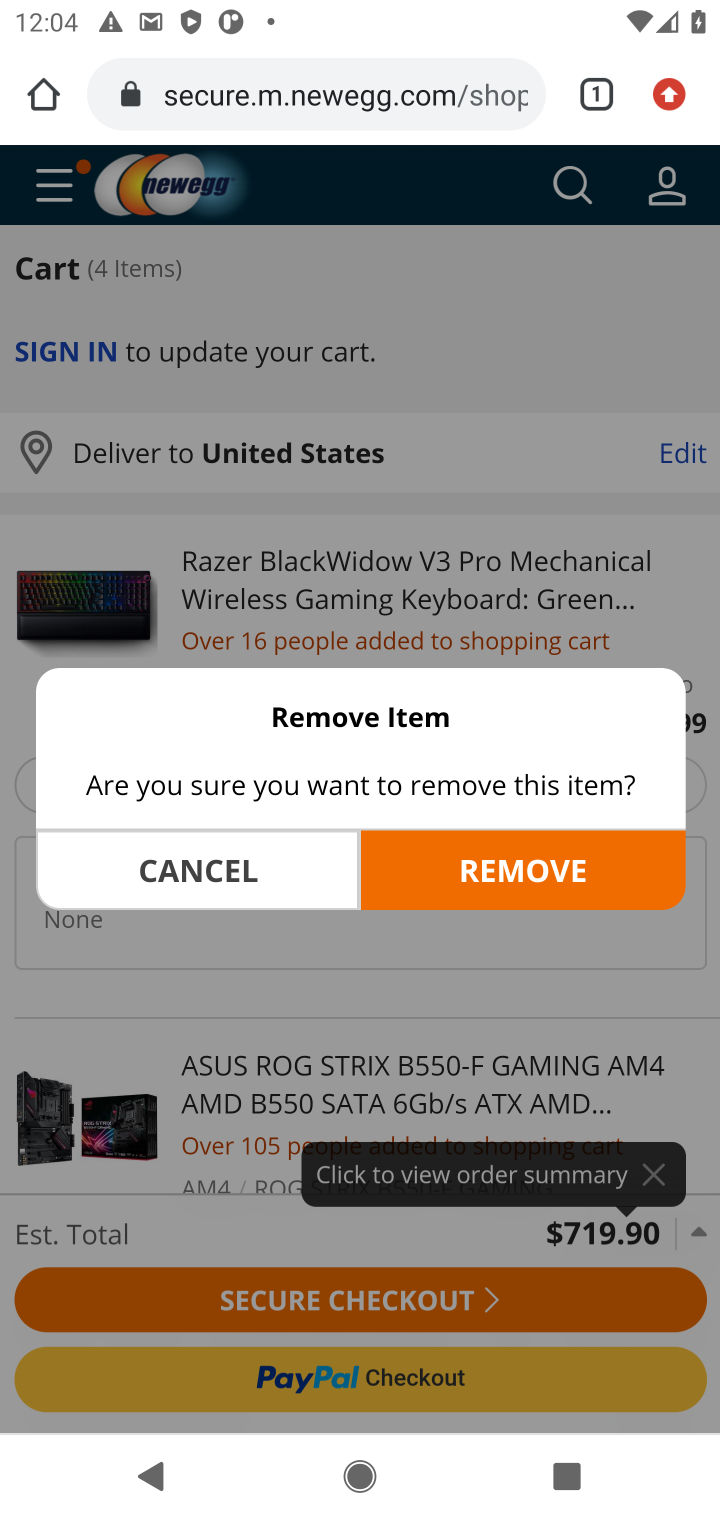
Step 25: click (489, 840)
Your task to perform on an android device: Empty the shopping cart on newegg.com. Search for "jbl flip 4" on newegg.com, select the first entry, add it to the cart, then select checkout. Image 26: 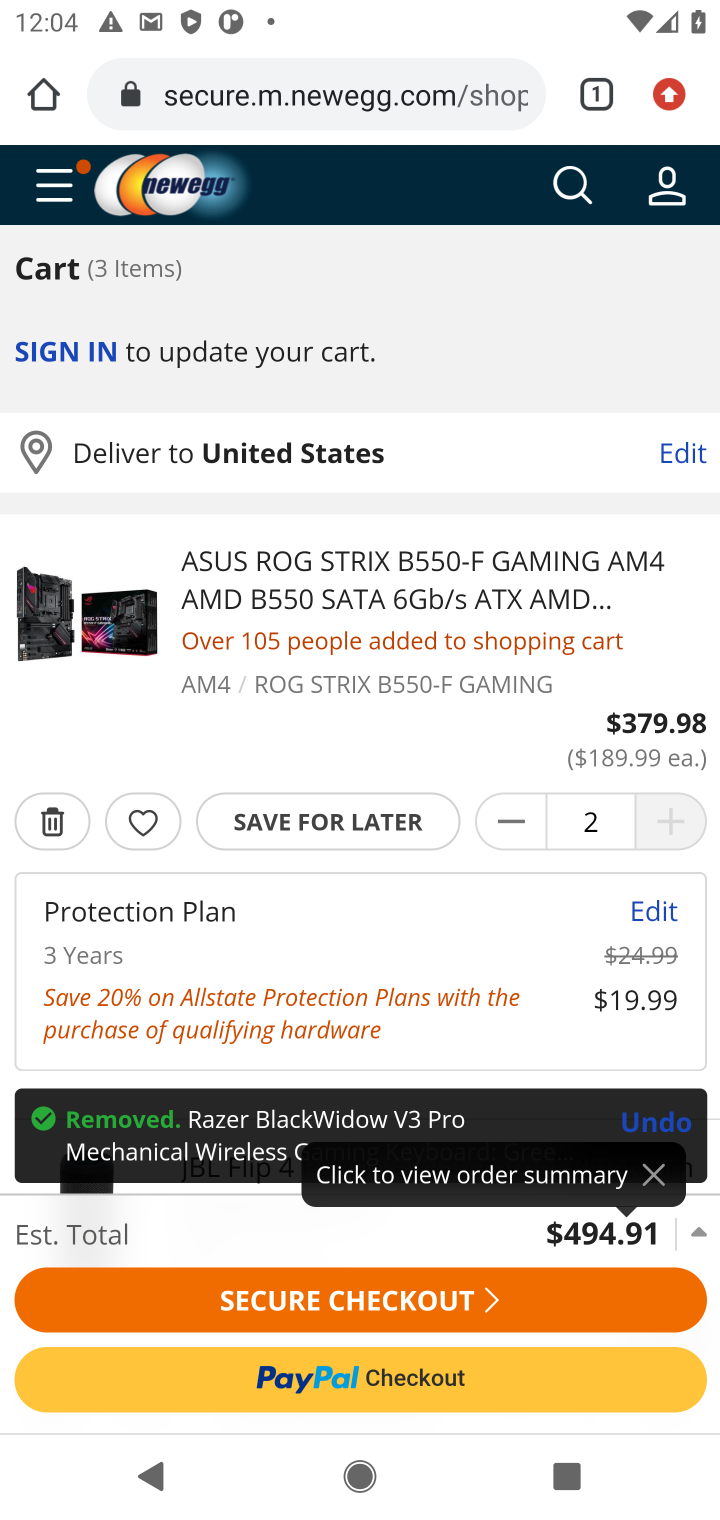
Step 26: click (63, 823)
Your task to perform on an android device: Empty the shopping cart on newegg.com. Search for "jbl flip 4" on newegg.com, select the first entry, add it to the cart, then select checkout. Image 27: 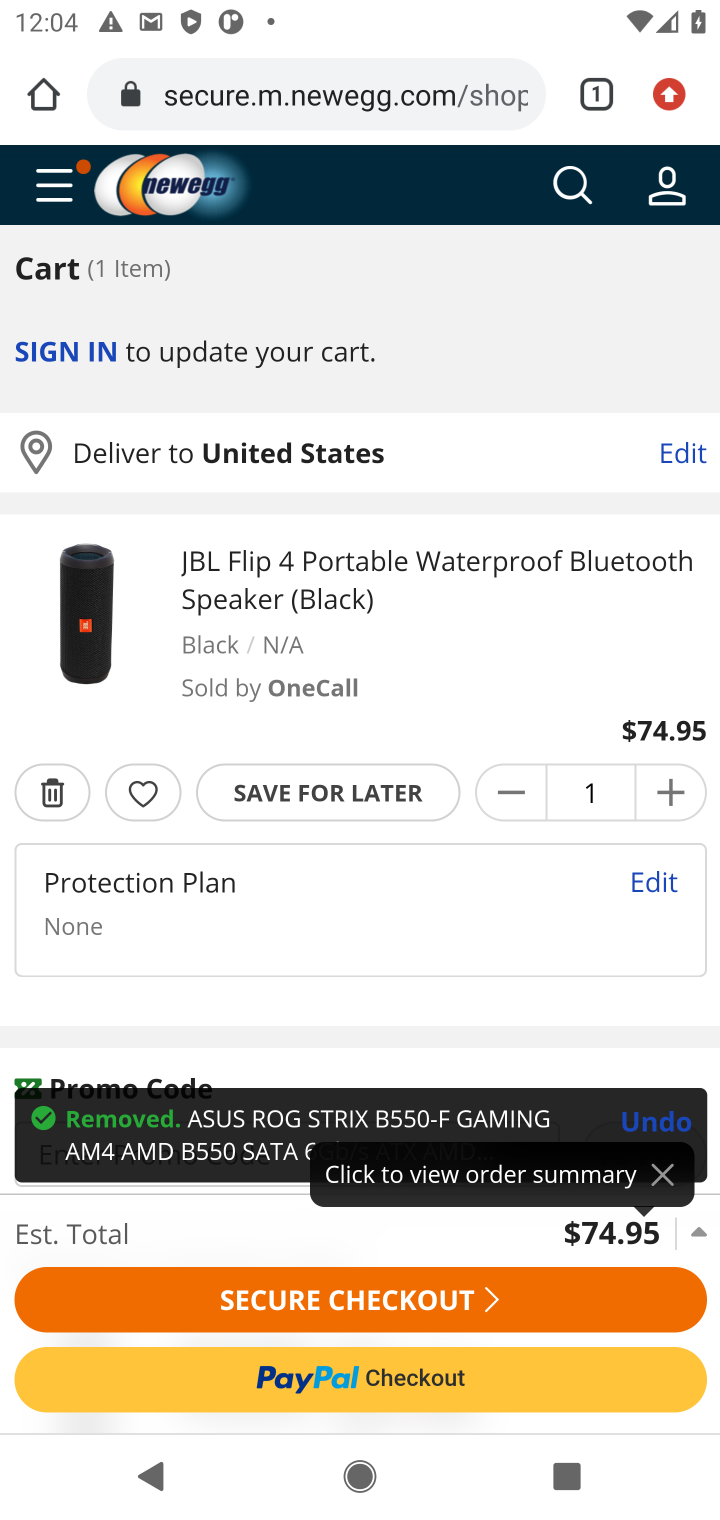
Step 27: click (495, 1303)
Your task to perform on an android device: Empty the shopping cart on newegg.com. Search for "jbl flip 4" on newegg.com, select the first entry, add it to the cart, then select checkout. Image 28: 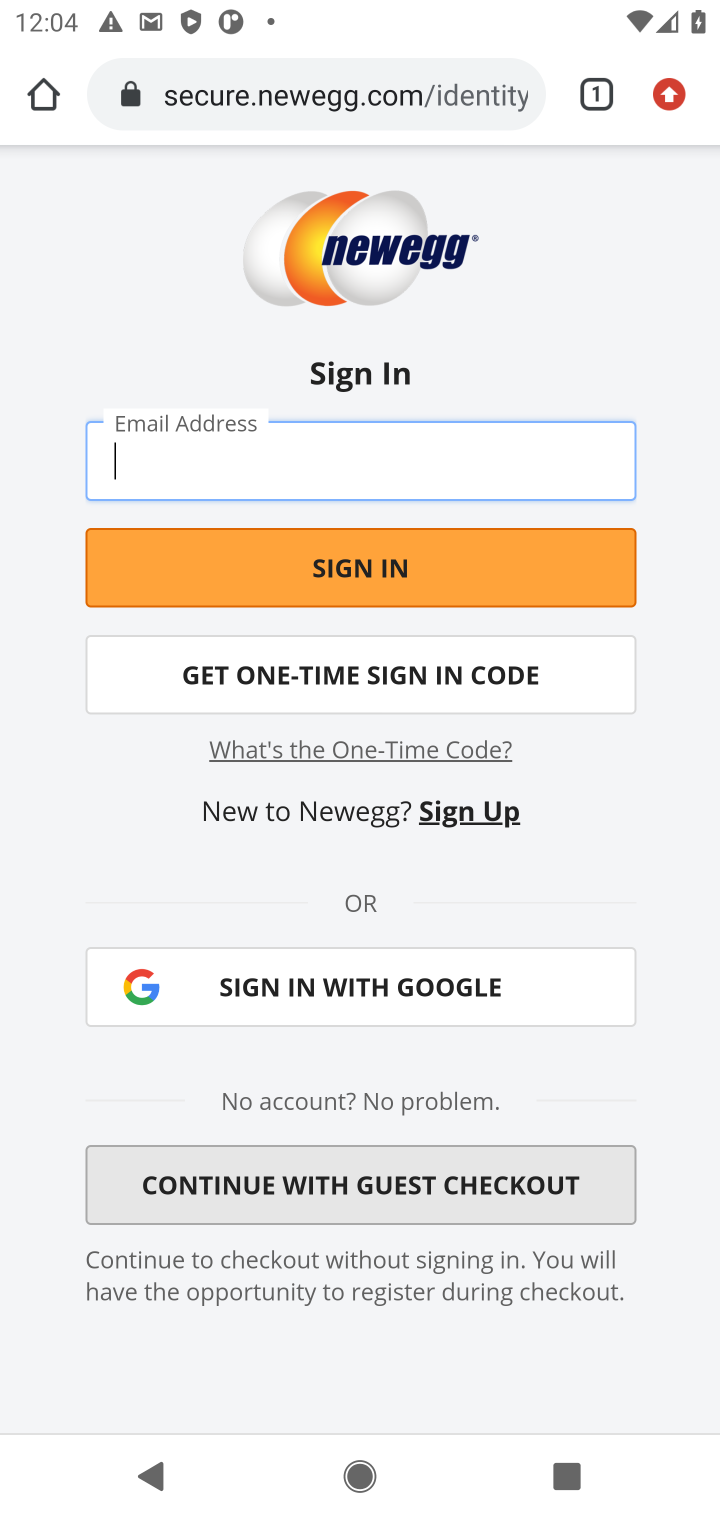
Step 28: click (461, 1185)
Your task to perform on an android device: Empty the shopping cart on newegg.com. Search for "jbl flip 4" on newegg.com, select the first entry, add it to the cart, then select checkout. Image 29: 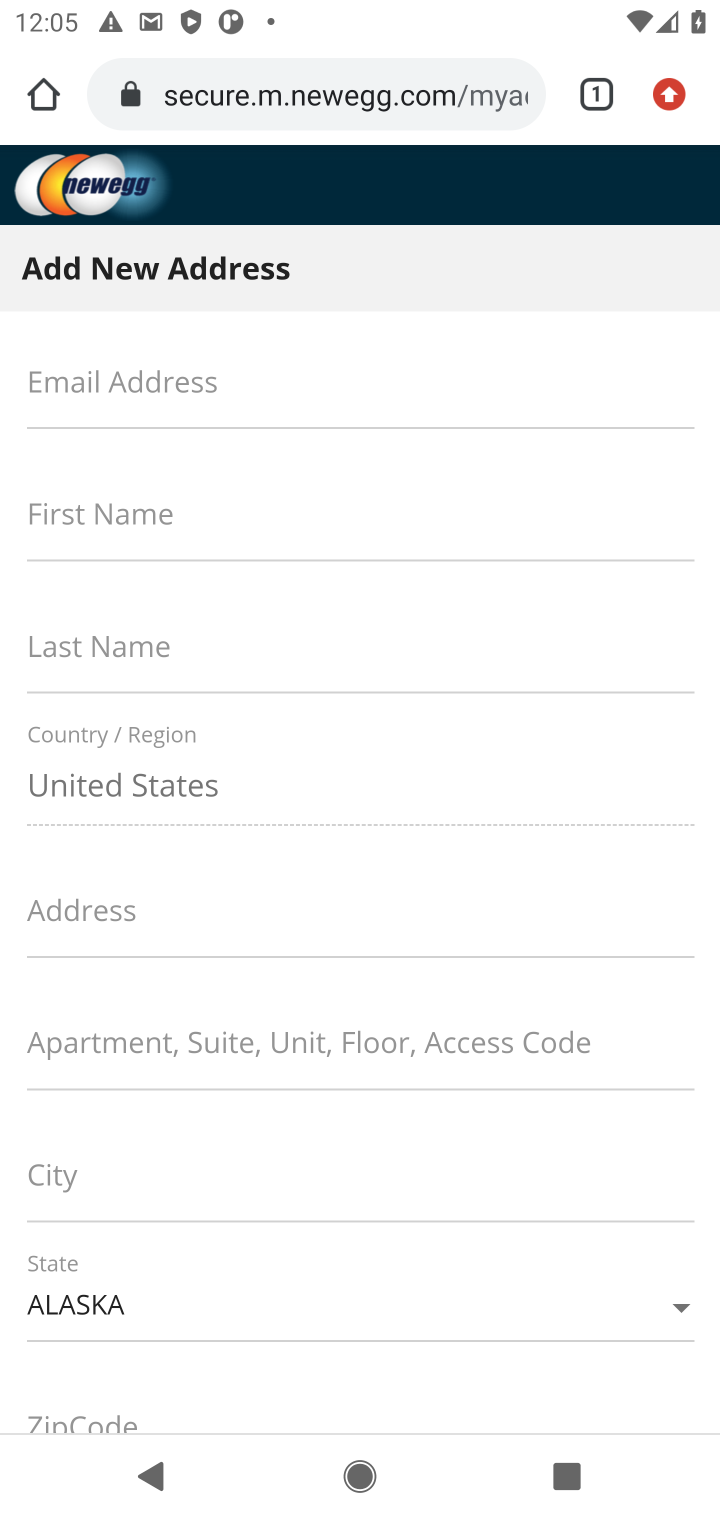
Step 29: drag from (492, 1118) to (626, 365)
Your task to perform on an android device: Empty the shopping cart on newegg.com. Search for "jbl flip 4" on newegg.com, select the first entry, add it to the cart, then select checkout. Image 30: 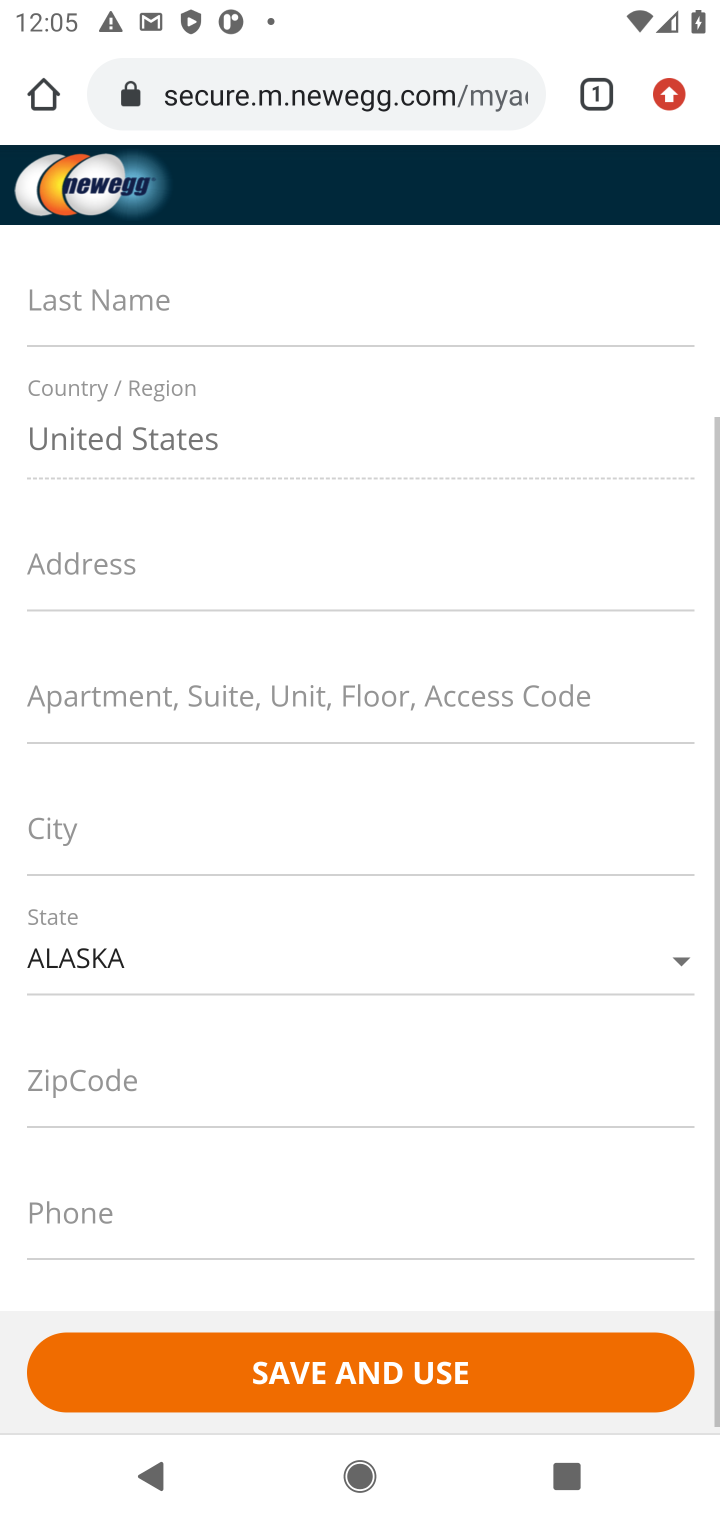
Step 30: drag from (527, 863) to (547, 537)
Your task to perform on an android device: Empty the shopping cart on newegg.com. Search for "jbl flip 4" on newegg.com, select the first entry, add it to the cart, then select checkout. Image 31: 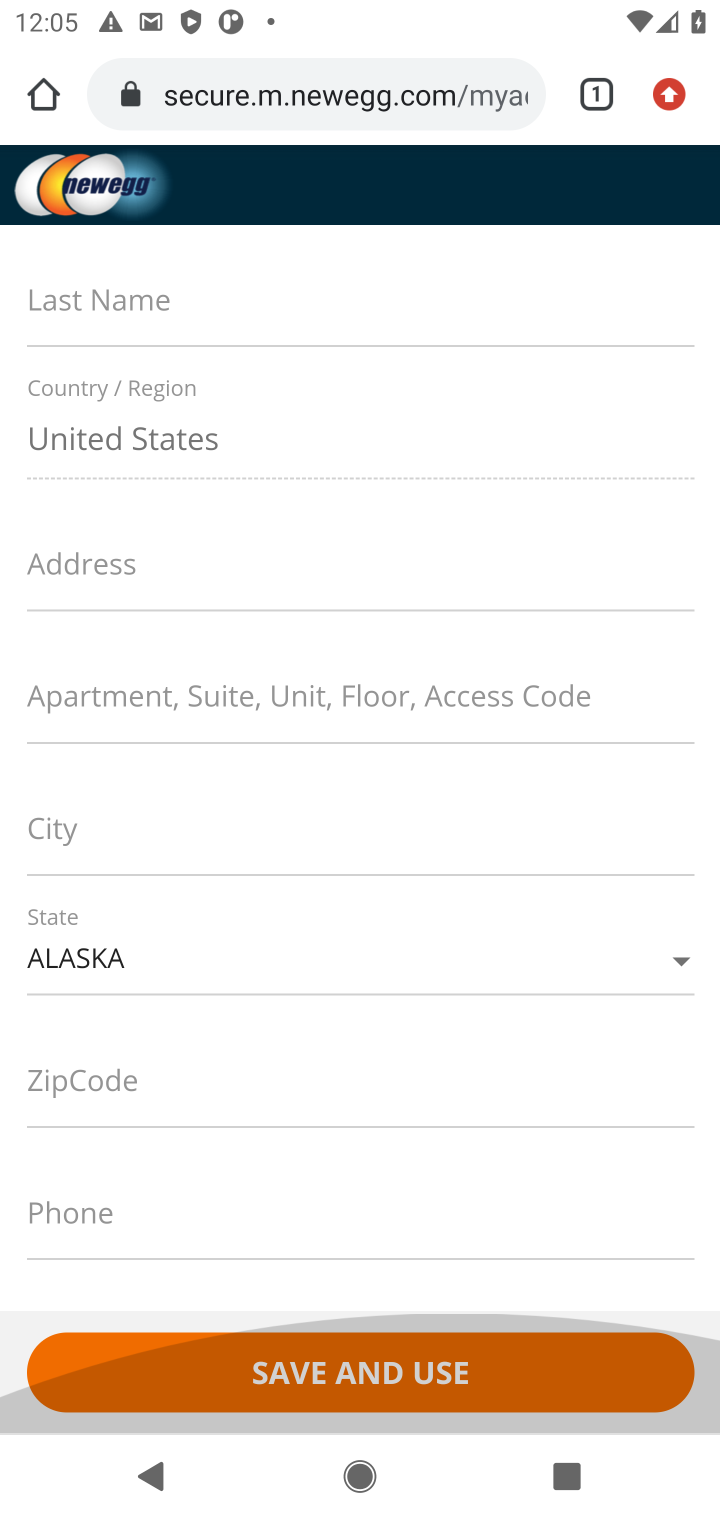
Step 31: drag from (450, 977) to (483, 617)
Your task to perform on an android device: Empty the shopping cart on newegg.com. Search for "jbl flip 4" on newegg.com, select the first entry, add it to the cart, then select checkout. Image 32: 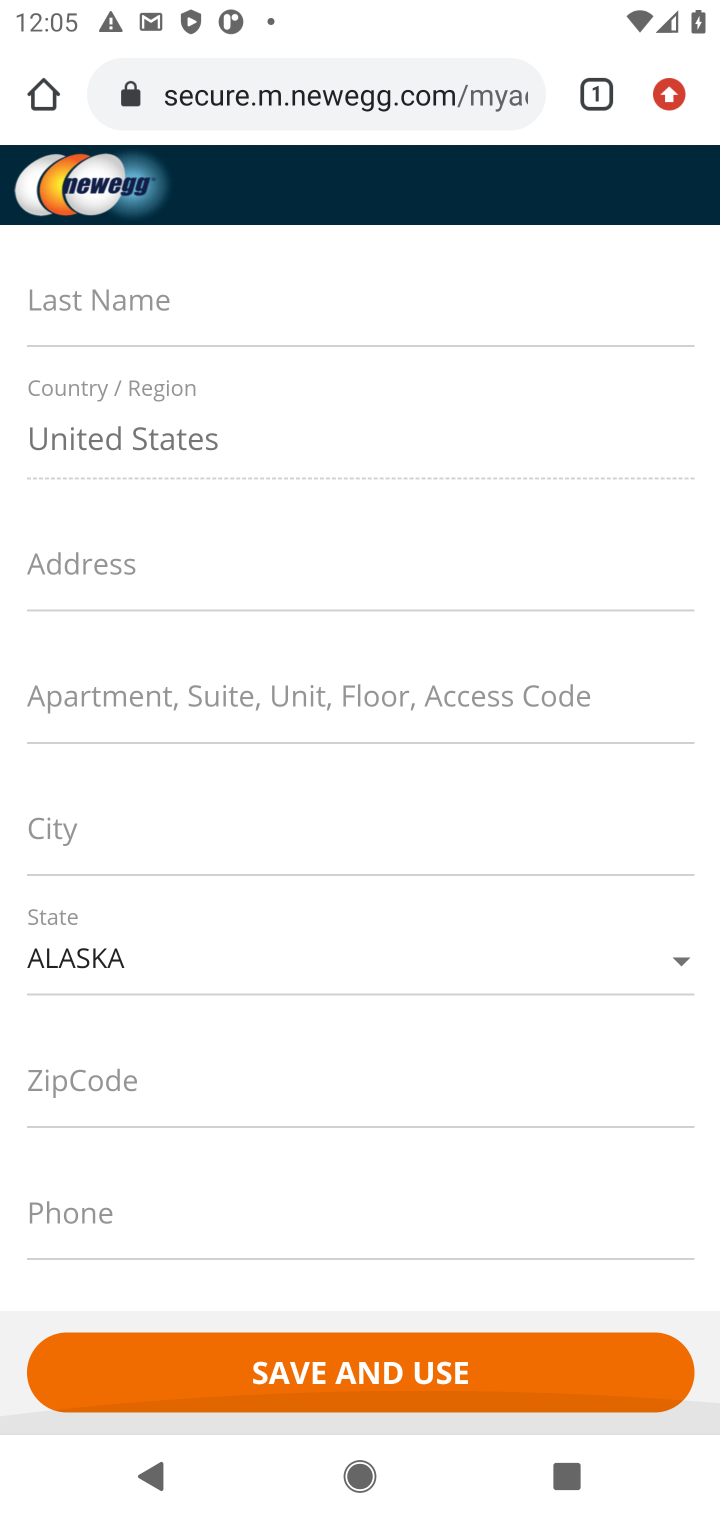
Step 32: click (386, 1362)
Your task to perform on an android device: Empty the shopping cart on newegg.com. Search for "jbl flip 4" on newegg.com, select the first entry, add it to the cart, then select checkout. Image 33: 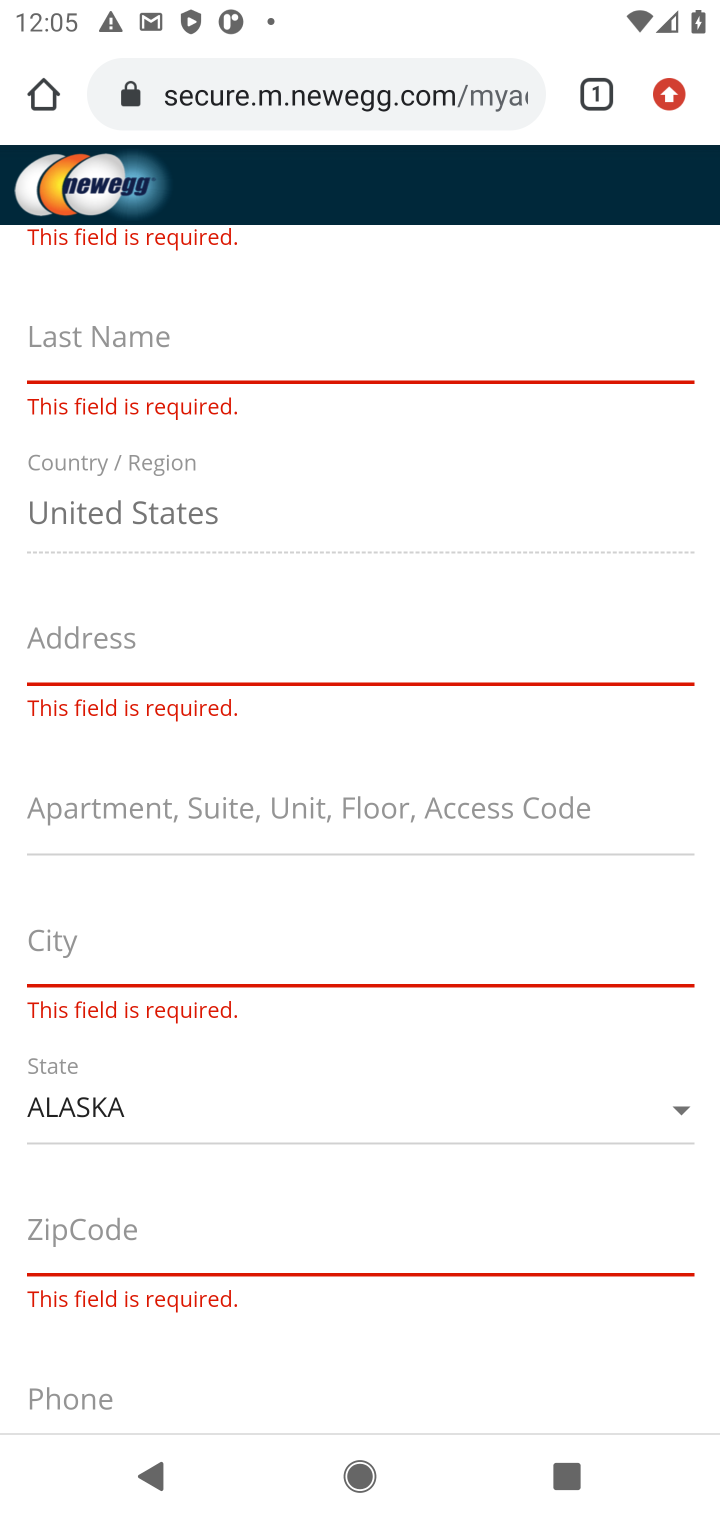
Step 33: task complete